Your task to perform on an android device: open app "ZOOM Cloud Meetings" Image 0: 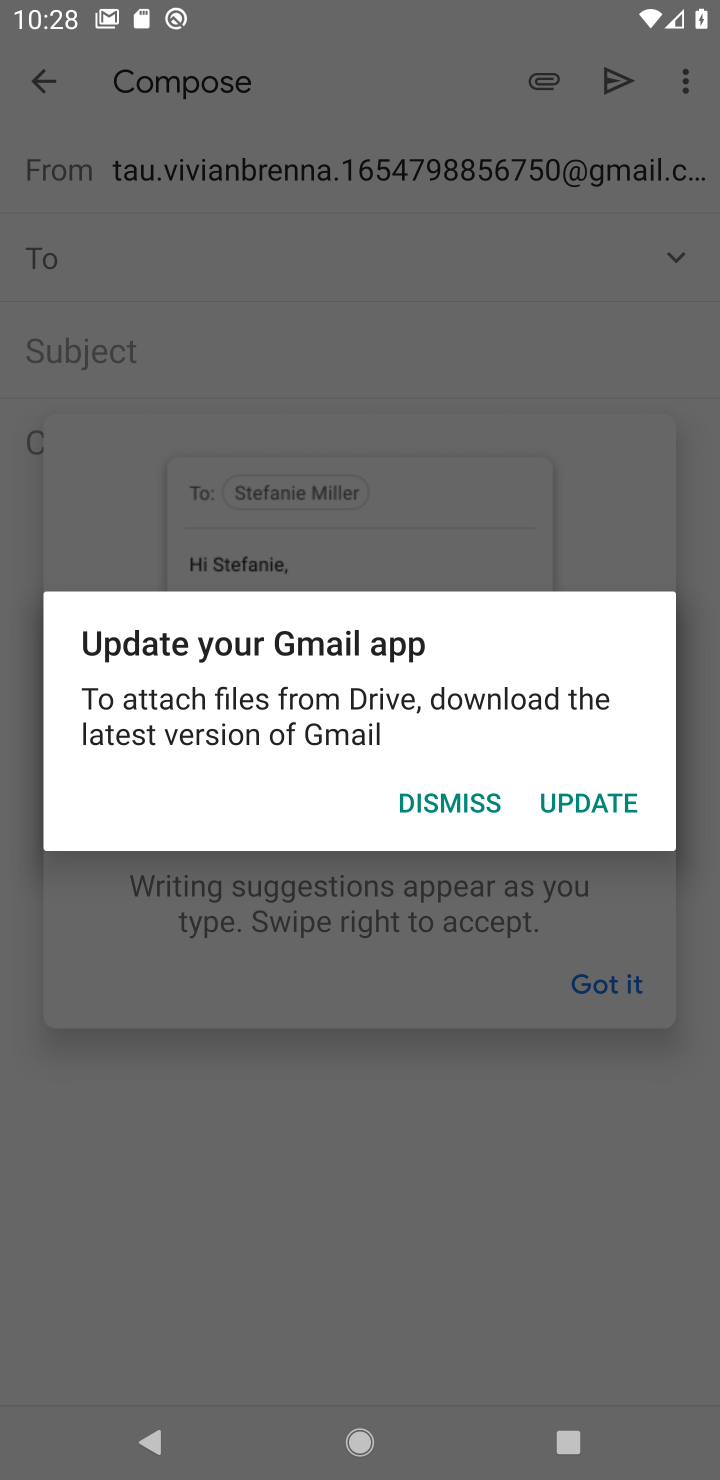
Step 0: click (455, 795)
Your task to perform on an android device: open app "ZOOM Cloud Meetings" Image 1: 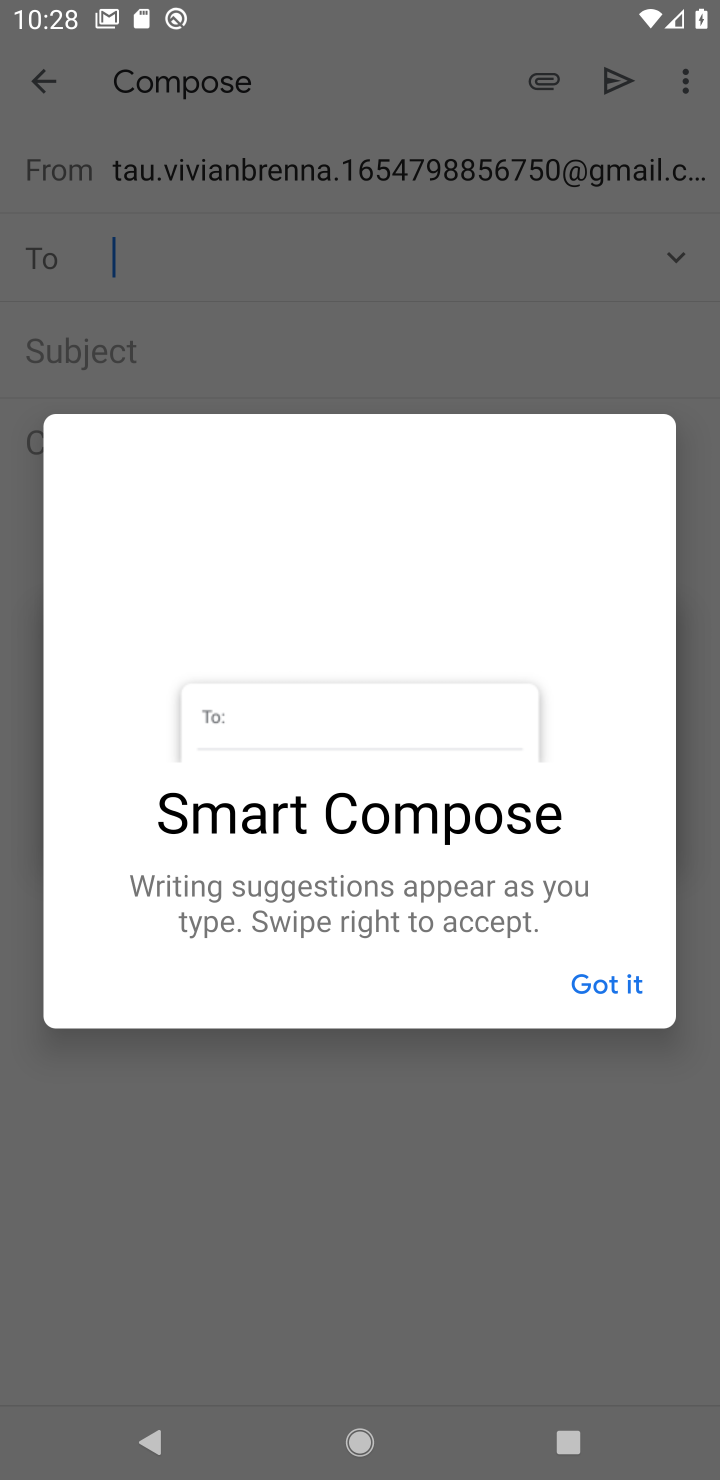
Step 1: click (628, 990)
Your task to perform on an android device: open app "ZOOM Cloud Meetings" Image 2: 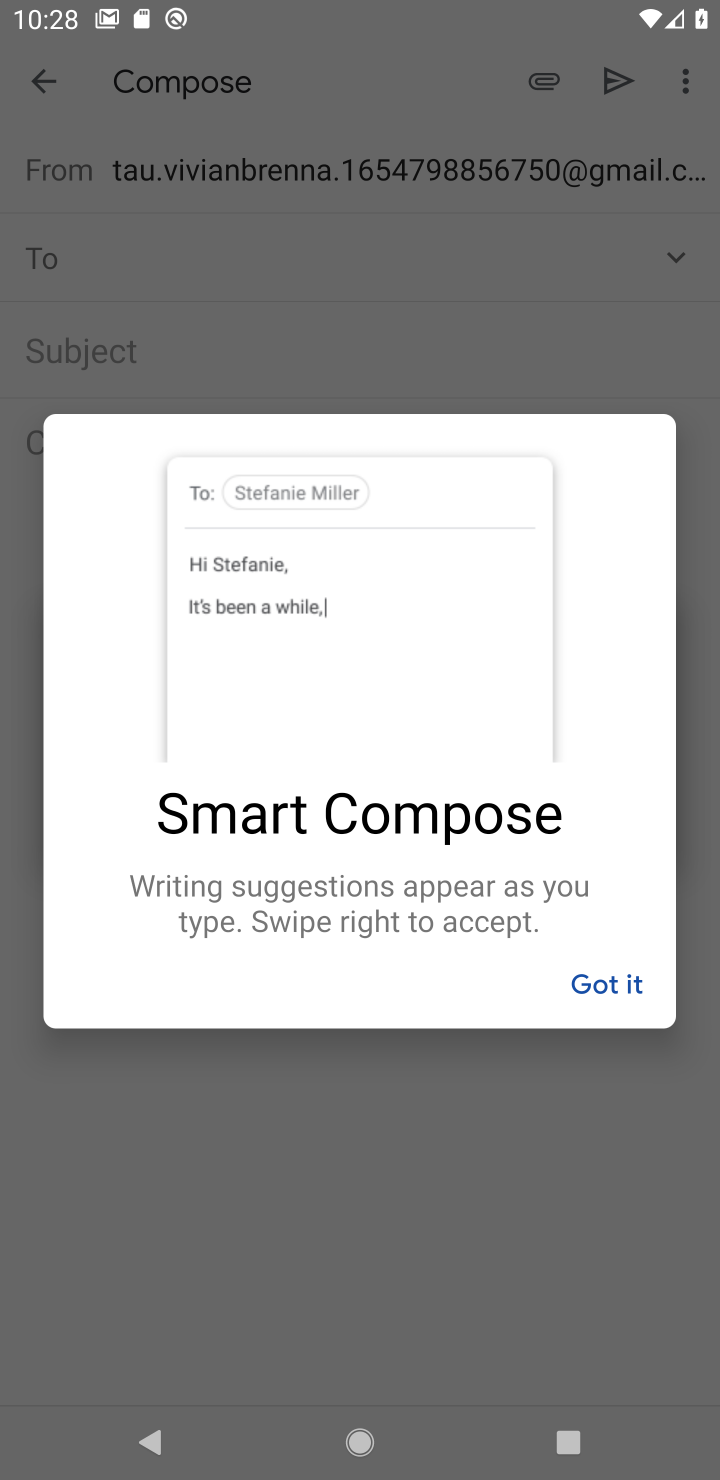
Step 2: click (626, 989)
Your task to perform on an android device: open app "ZOOM Cloud Meetings" Image 3: 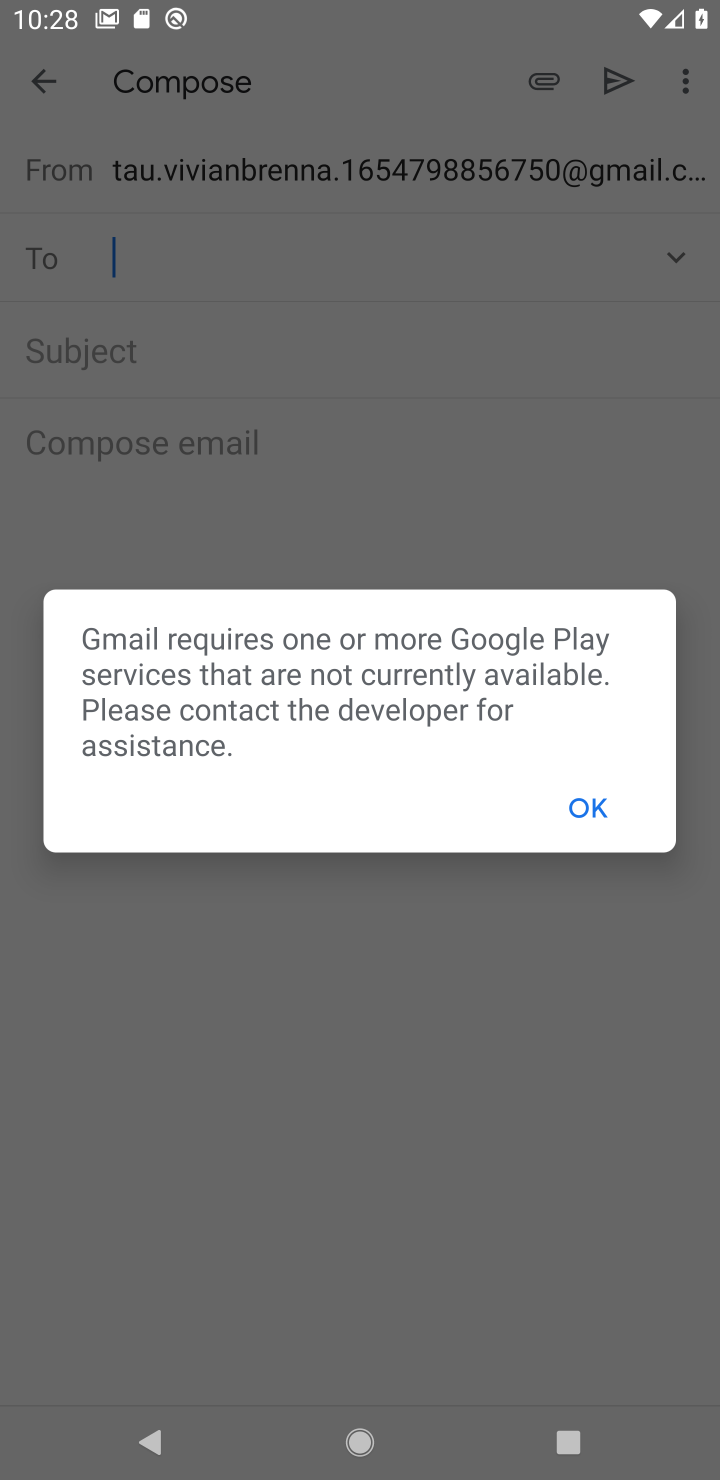
Step 3: click (571, 839)
Your task to perform on an android device: open app "ZOOM Cloud Meetings" Image 4: 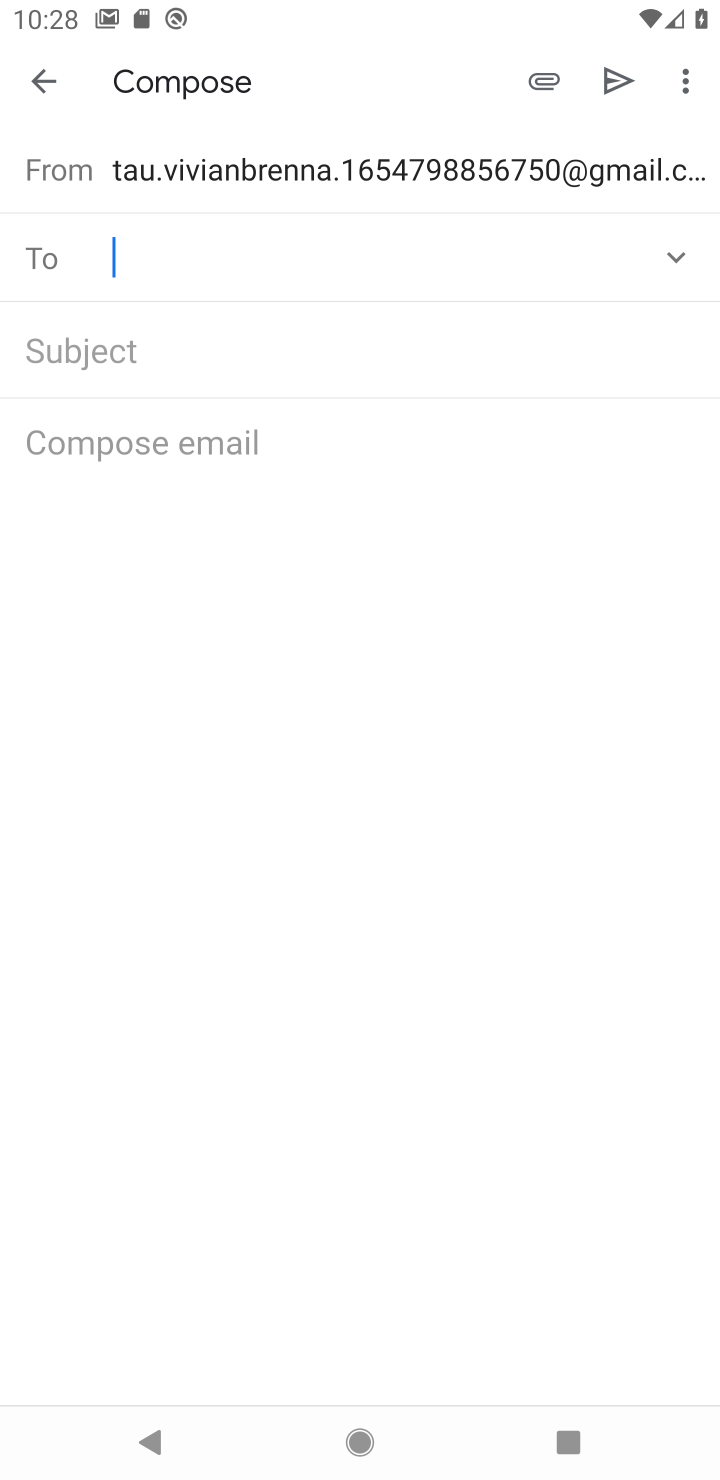
Step 4: click (38, 80)
Your task to perform on an android device: open app "ZOOM Cloud Meetings" Image 5: 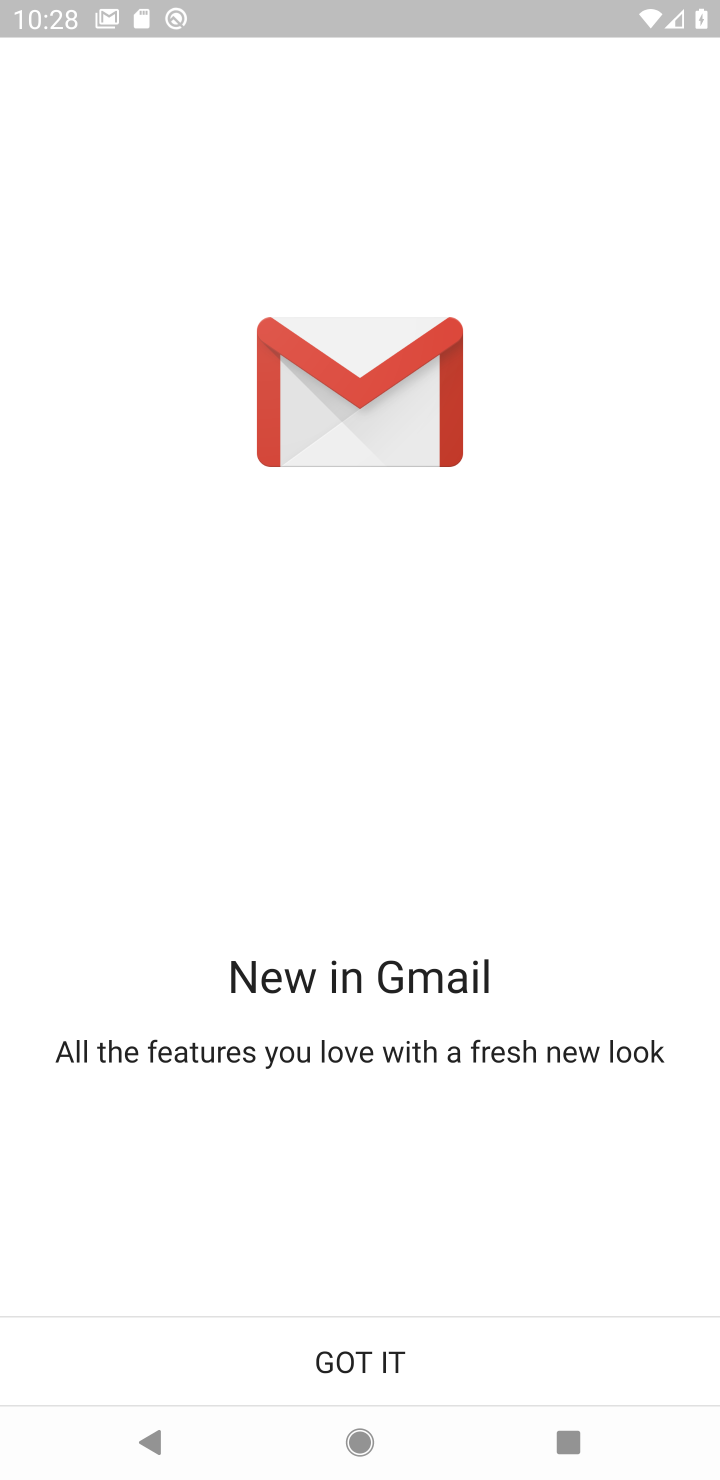
Step 5: press back button
Your task to perform on an android device: open app "ZOOM Cloud Meetings" Image 6: 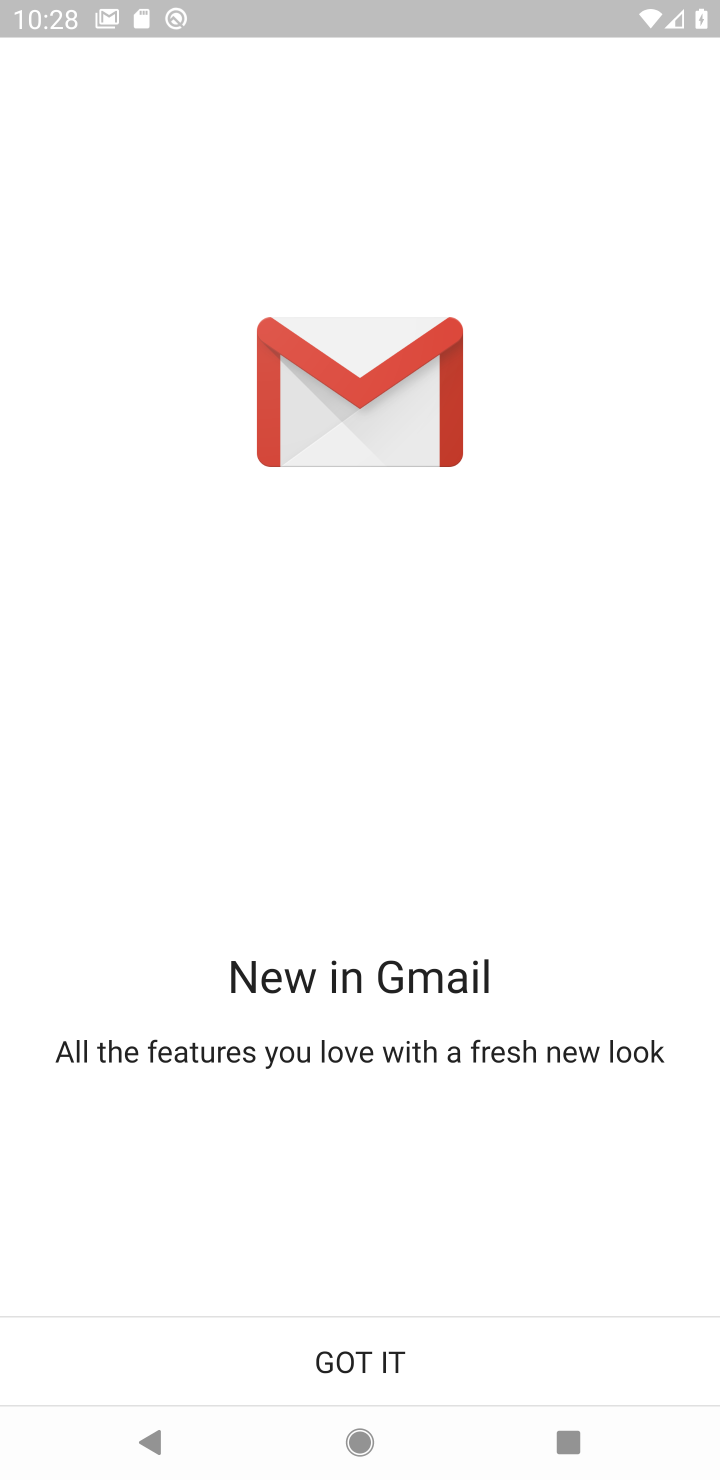
Step 6: press back button
Your task to perform on an android device: open app "ZOOM Cloud Meetings" Image 7: 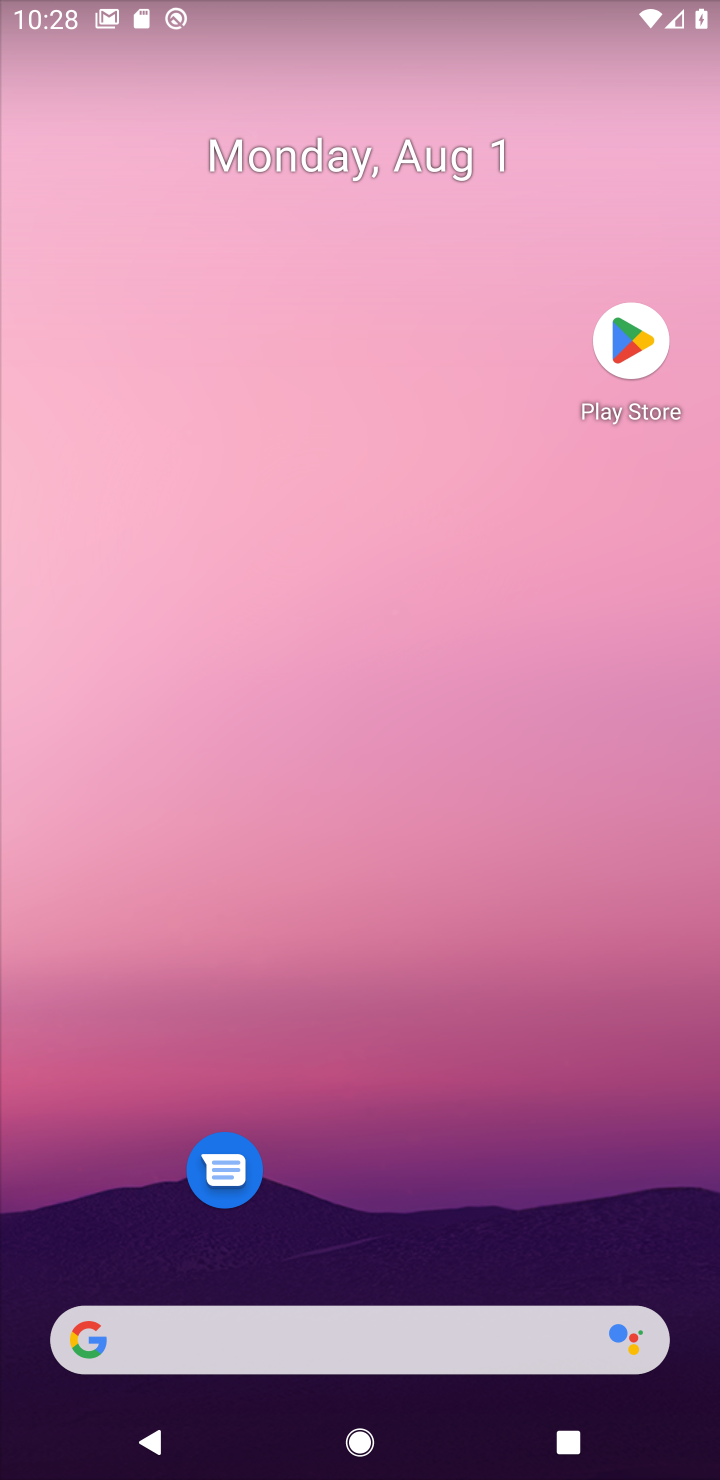
Step 7: press back button
Your task to perform on an android device: open app "ZOOM Cloud Meetings" Image 8: 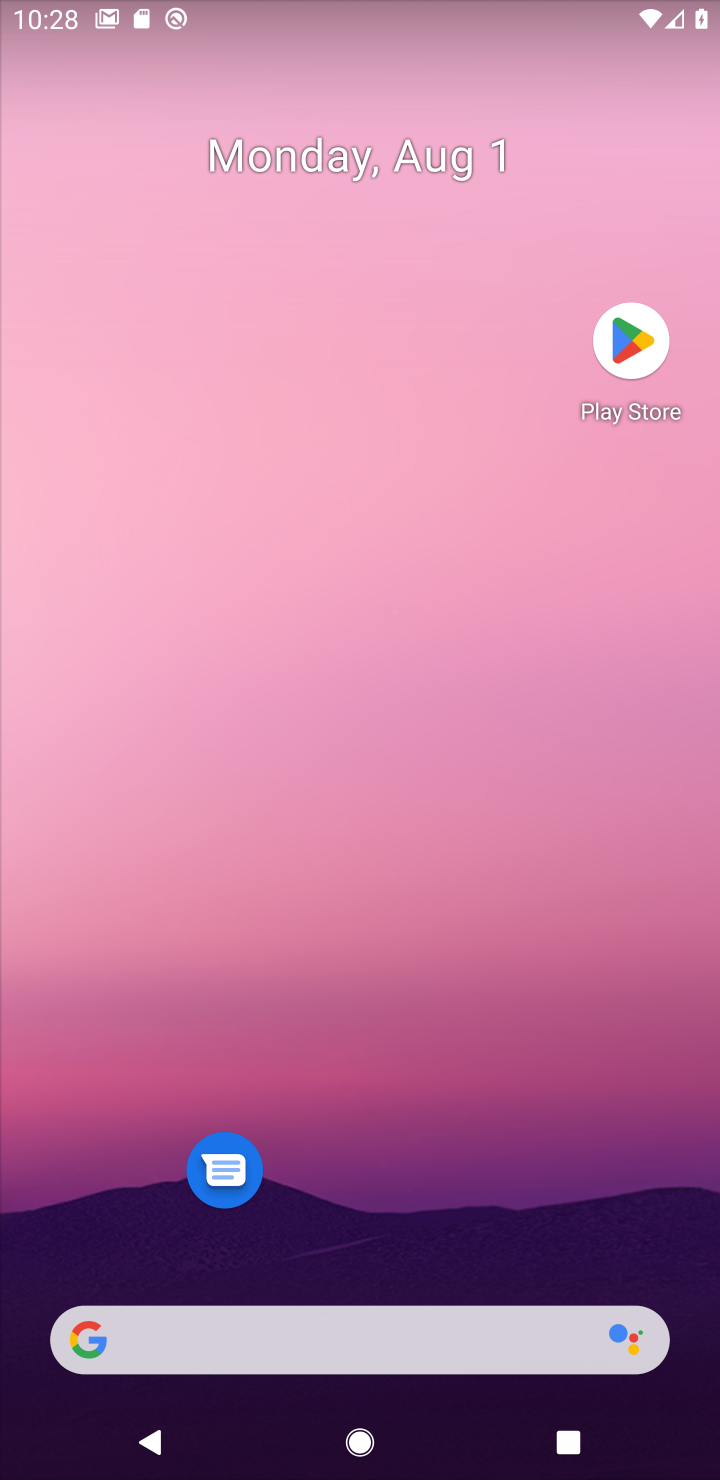
Step 8: click (299, 43)
Your task to perform on an android device: open app "ZOOM Cloud Meetings" Image 9: 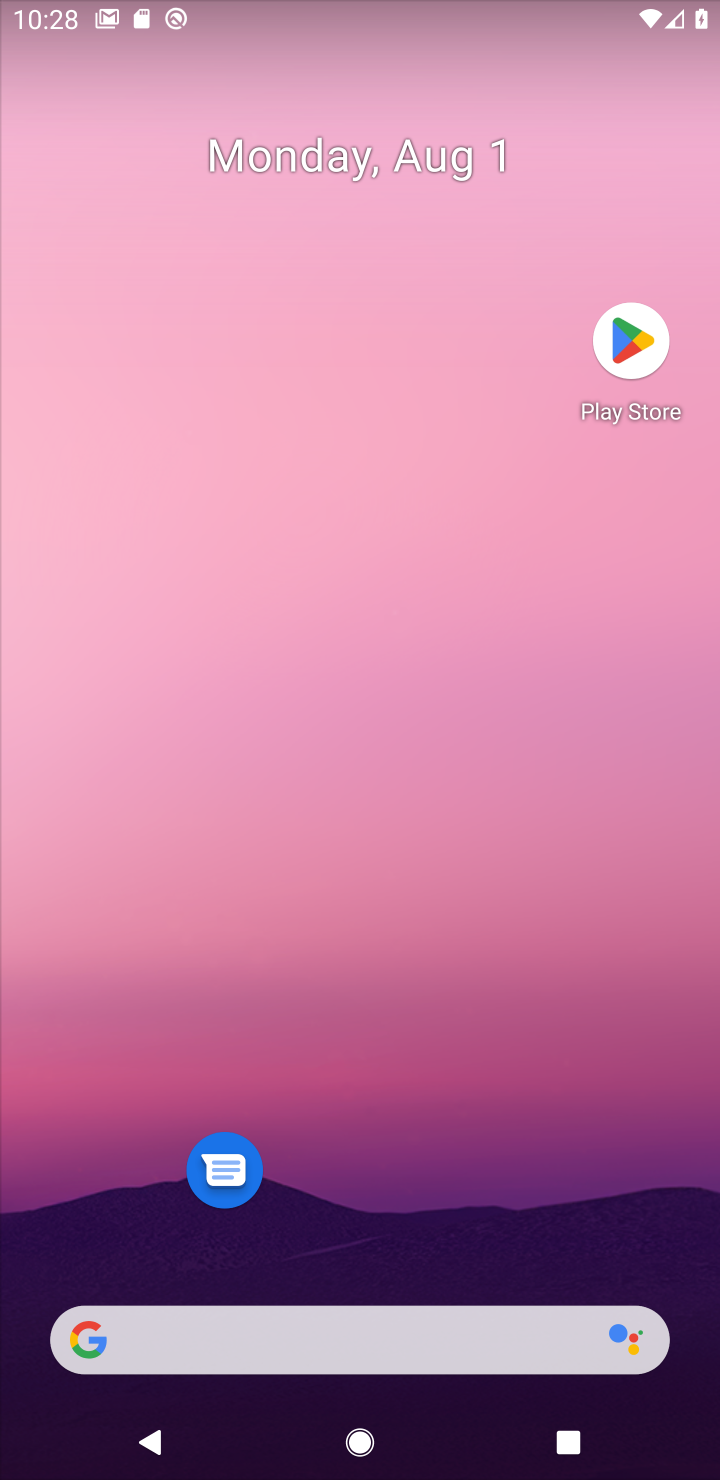
Step 9: drag from (545, 780) to (545, 134)
Your task to perform on an android device: open app "ZOOM Cloud Meetings" Image 10: 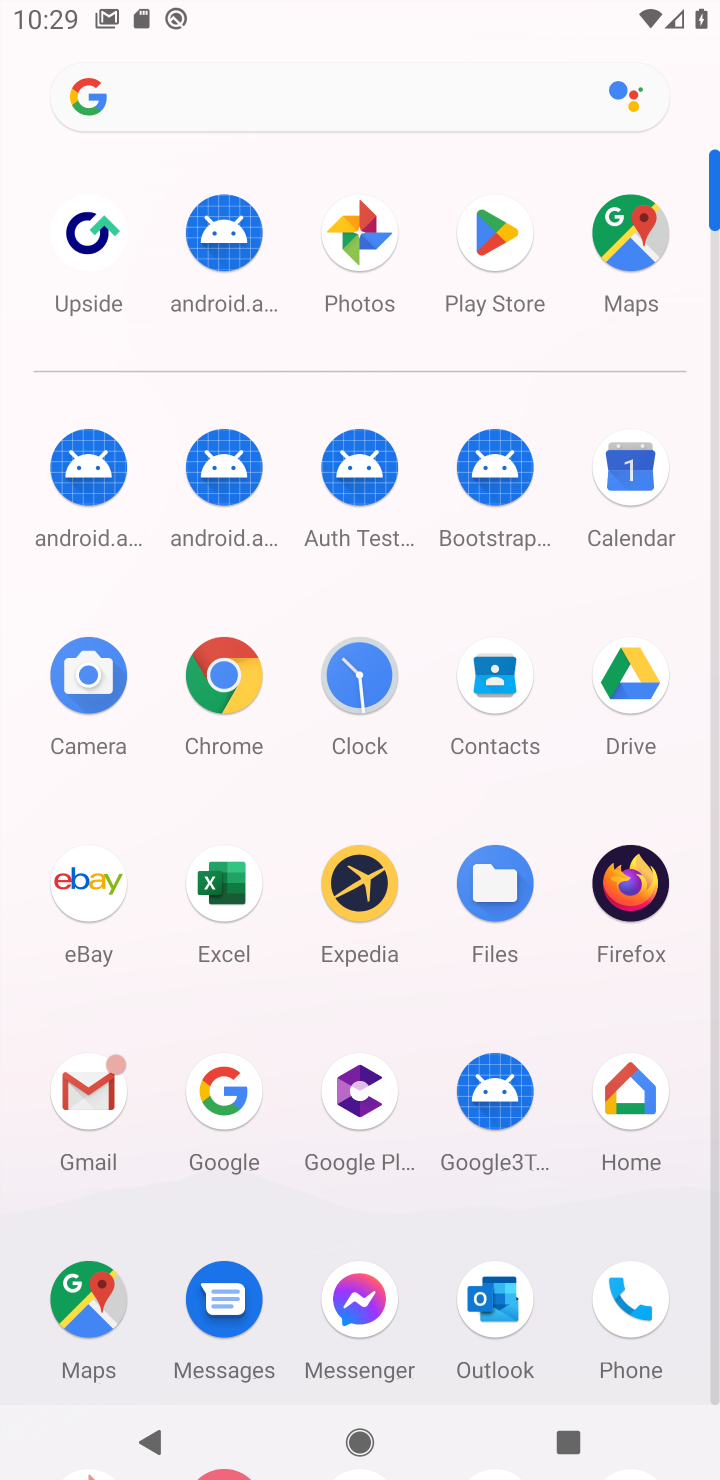
Step 10: click (487, 240)
Your task to perform on an android device: open app "ZOOM Cloud Meetings" Image 11: 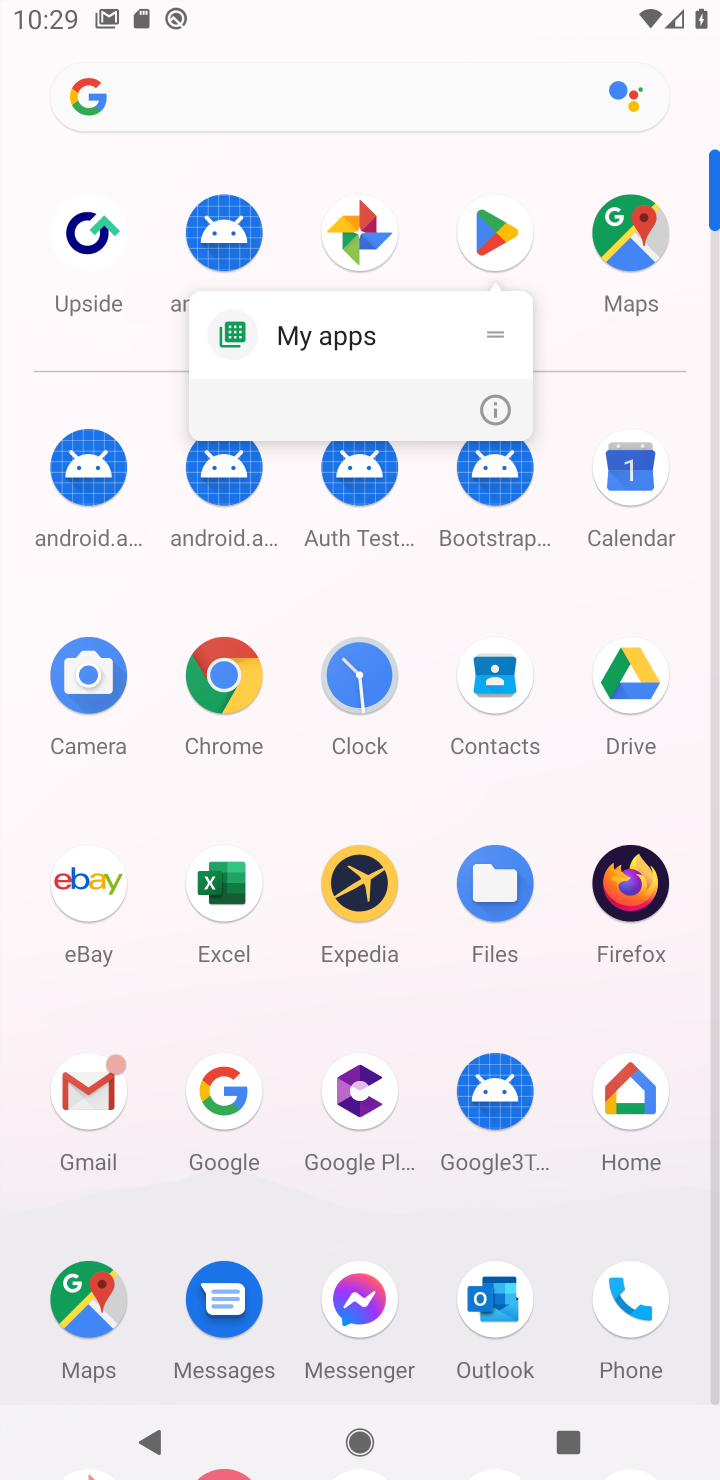
Step 11: click (491, 246)
Your task to perform on an android device: open app "ZOOM Cloud Meetings" Image 12: 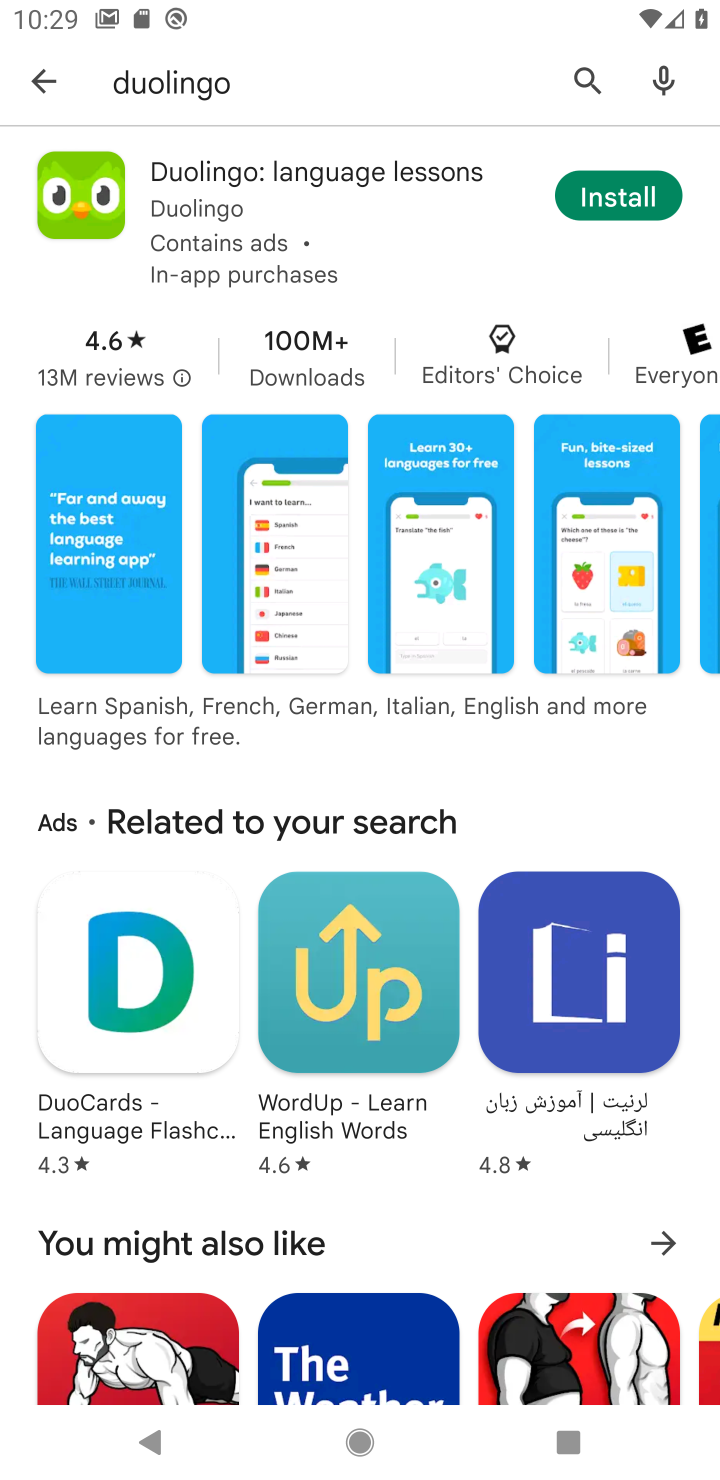
Step 12: click (38, 73)
Your task to perform on an android device: open app "ZOOM Cloud Meetings" Image 13: 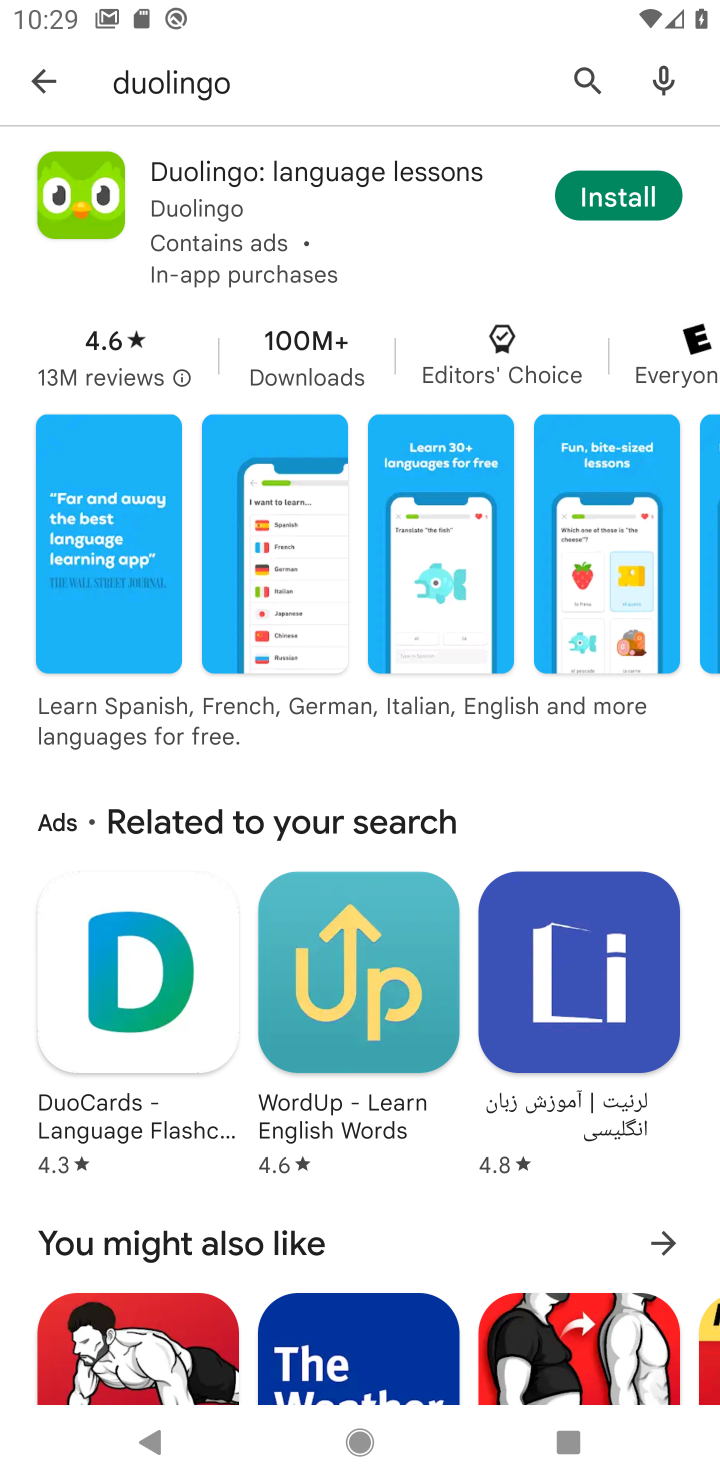
Step 13: click (58, 73)
Your task to perform on an android device: open app "ZOOM Cloud Meetings" Image 14: 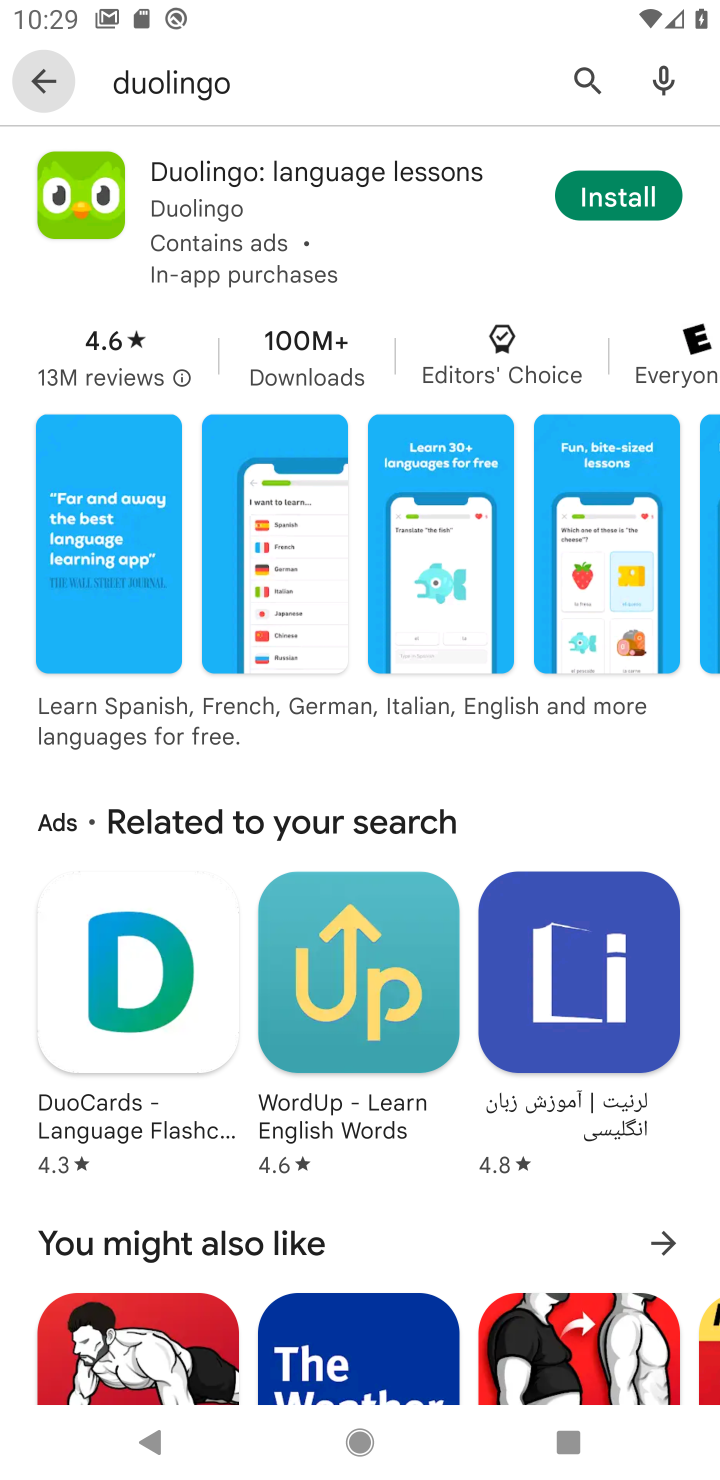
Step 14: click (58, 81)
Your task to perform on an android device: open app "ZOOM Cloud Meetings" Image 15: 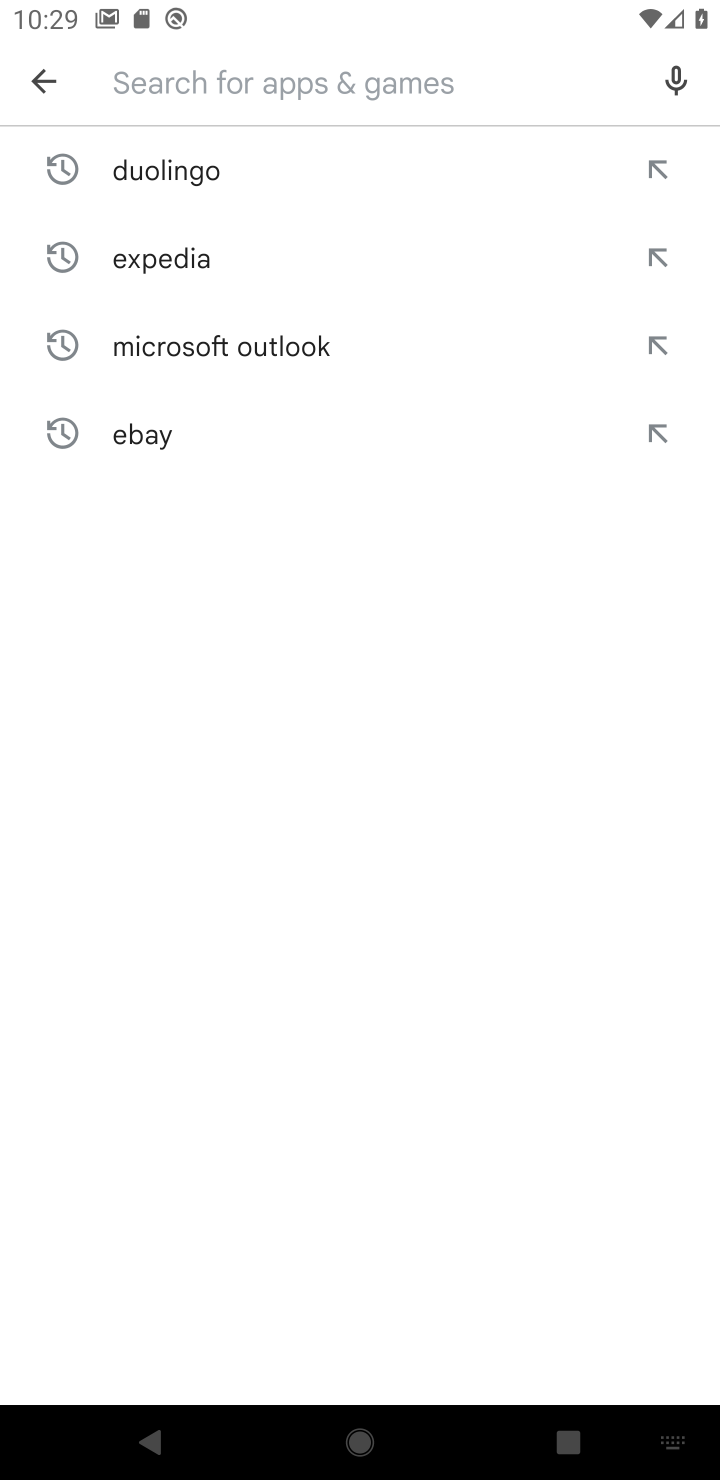
Step 15: click (198, 70)
Your task to perform on an android device: open app "ZOOM Cloud Meetings" Image 16: 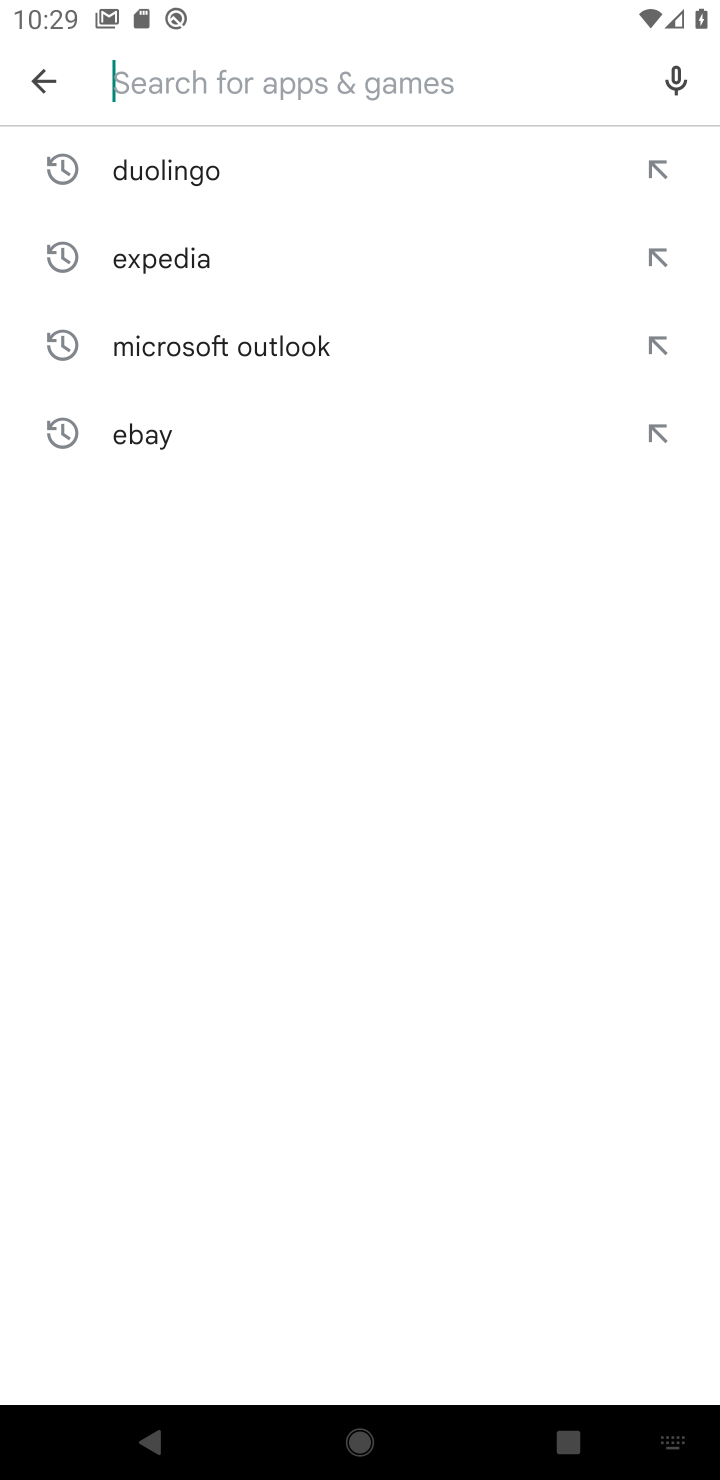
Step 16: click (198, 70)
Your task to perform on an android device: open app "ZOOM Cloud Meetings" Image 17: 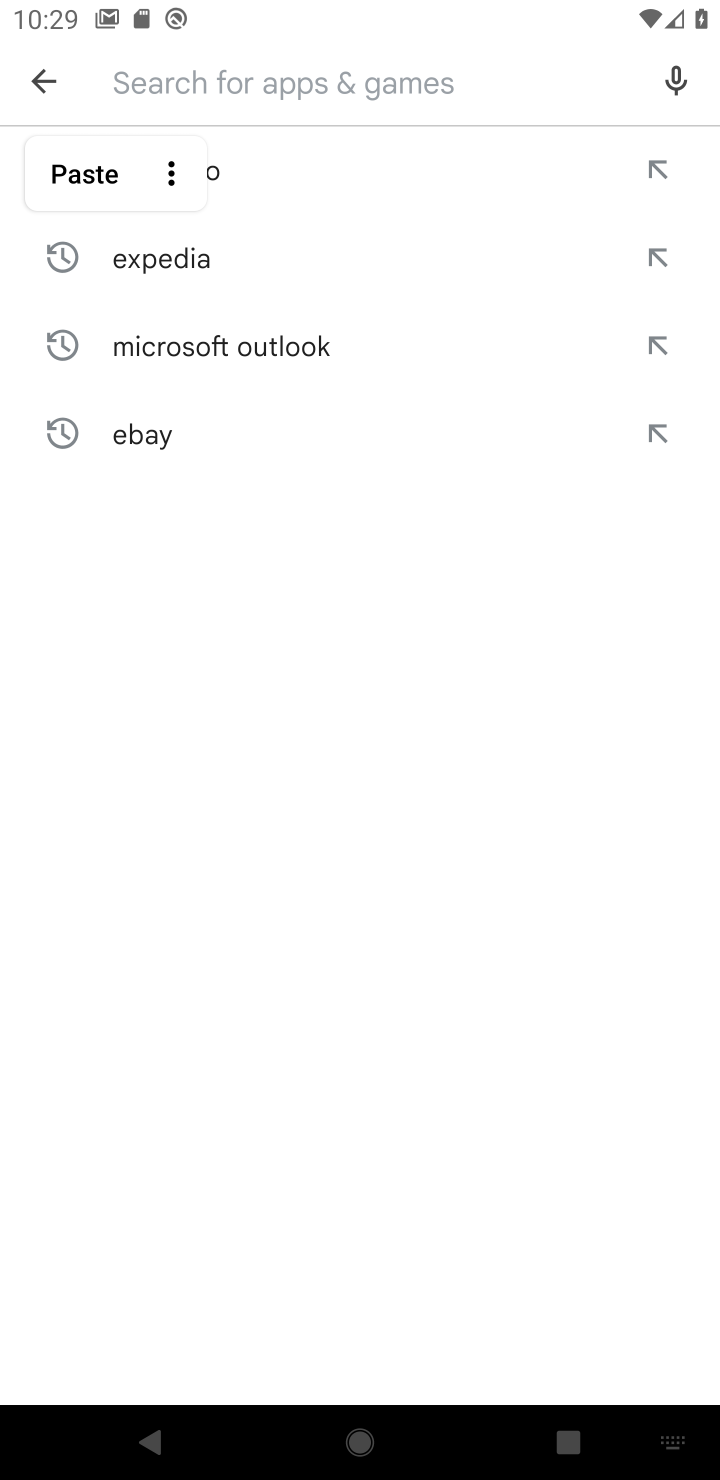
Step 17: type "Zoom cloud meetings"
Your task to perform on an android device: open app "ZOOM Cloud Meetings" Image 18: 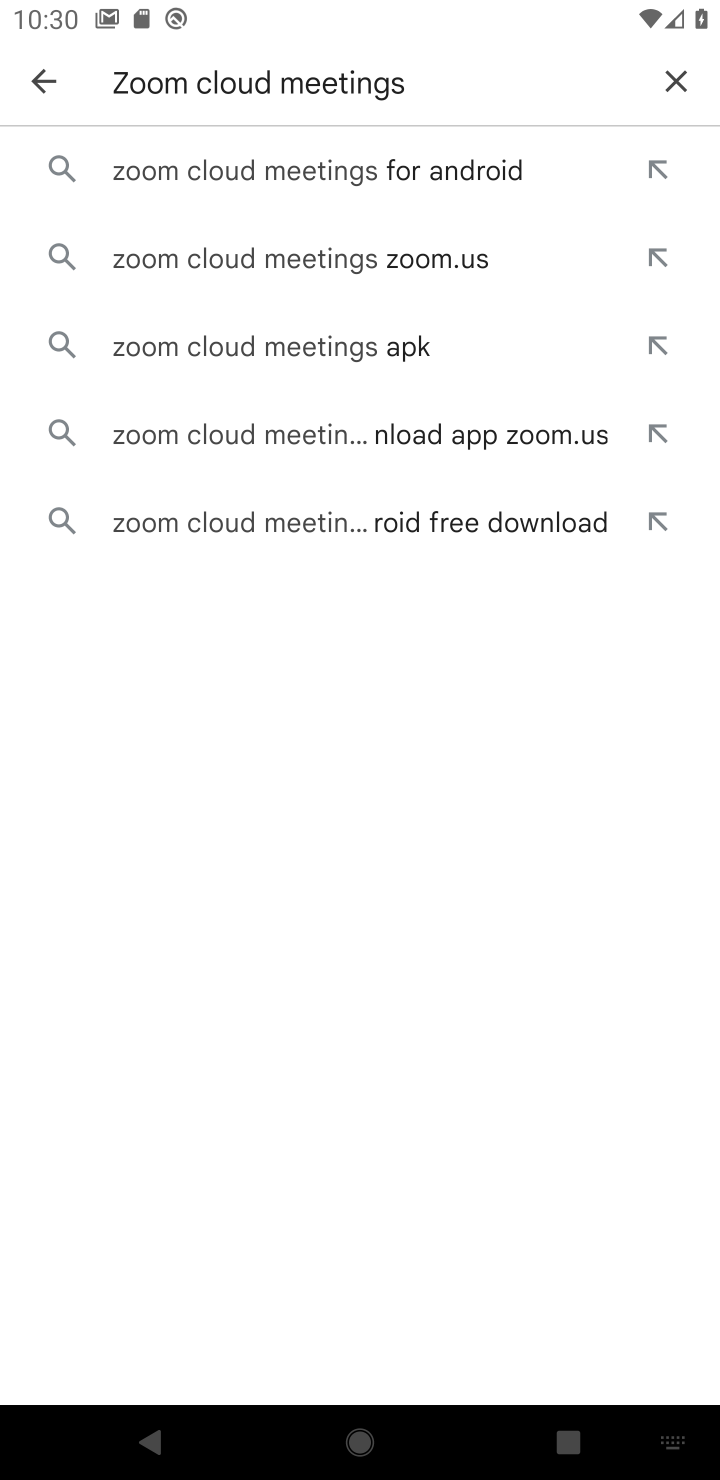
Step 18: click (264, 174)
Your task to perform on an android device: open app "ZOOM Cloud Meetings" Image 19: 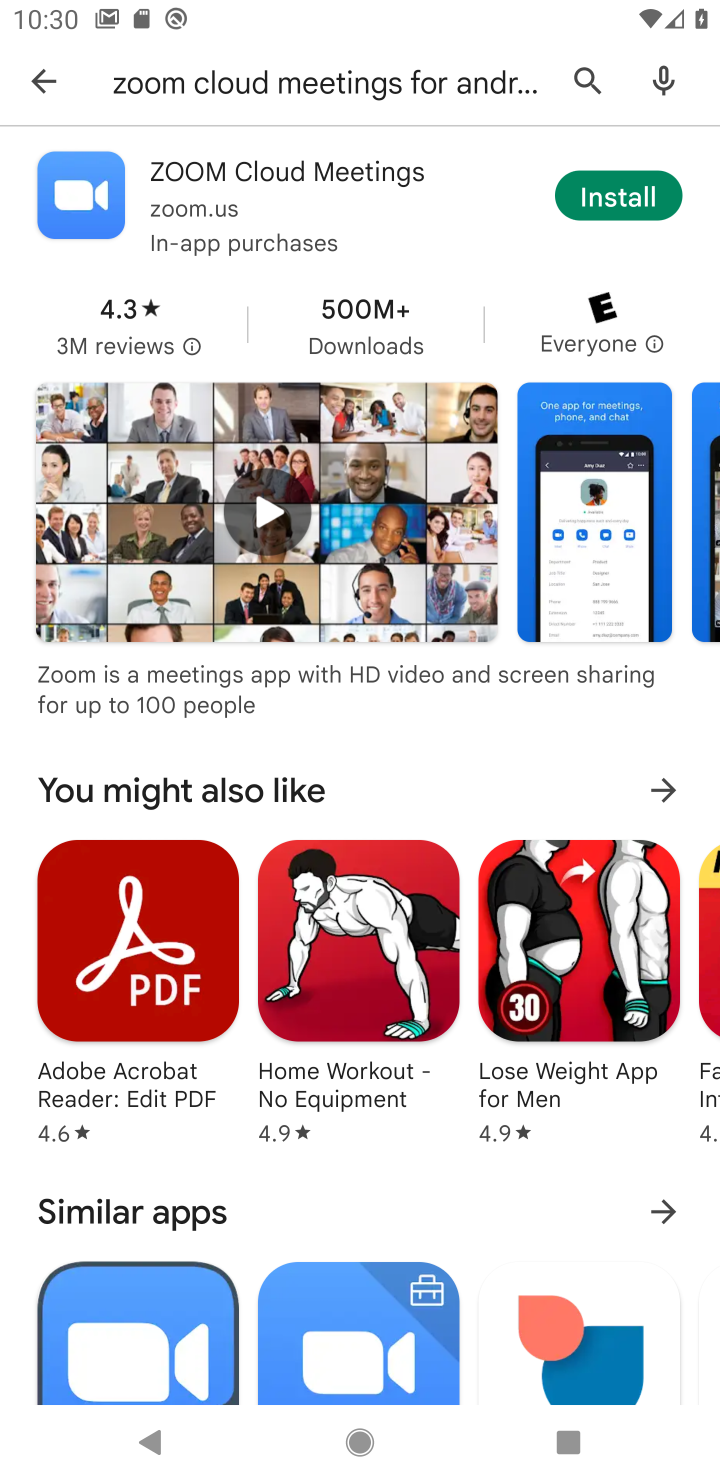
Step 19: click (619, 170)
Your task to perform on an android device: open app "ZOOM Cloud Meetings" Image 20: 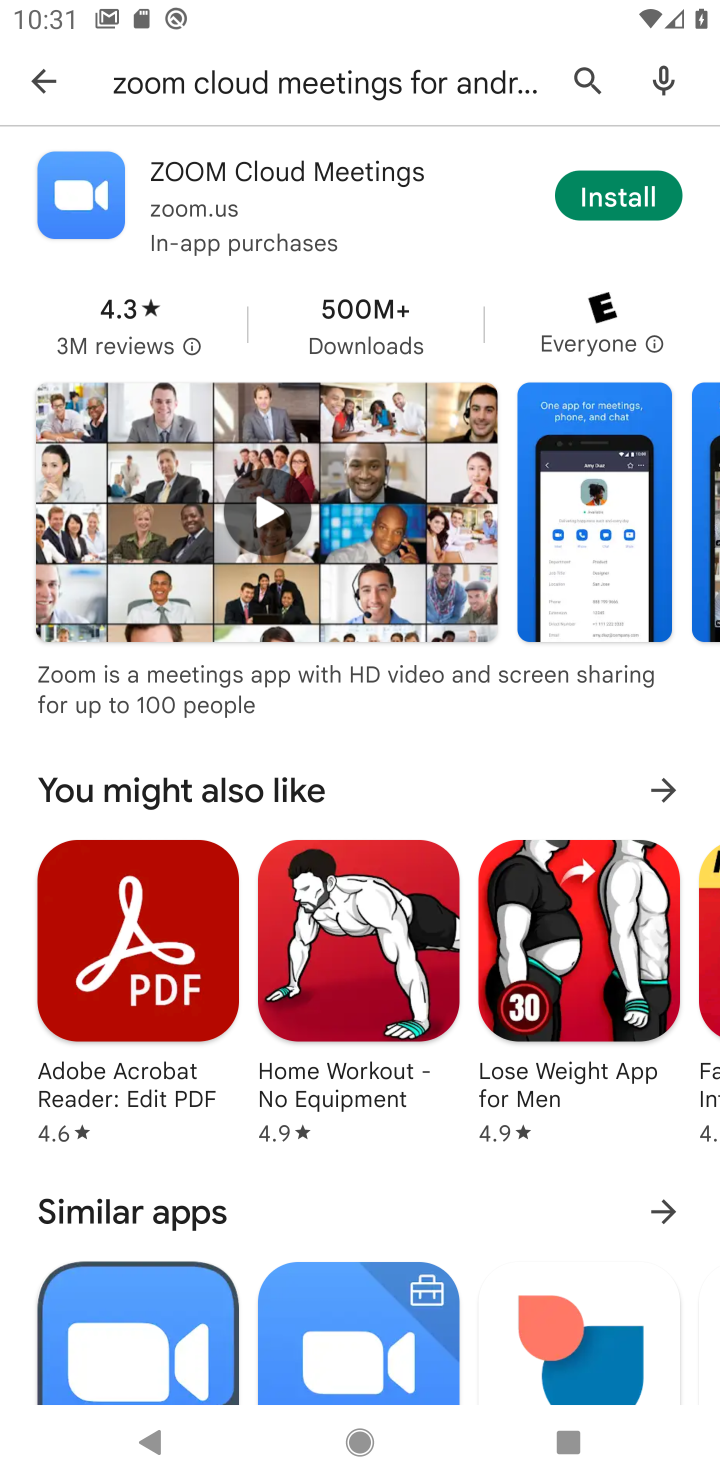
Step 20: click (630, 181)
Your task to perform on an android device: open app "ZOOM Cloud Meetings" Image 21: 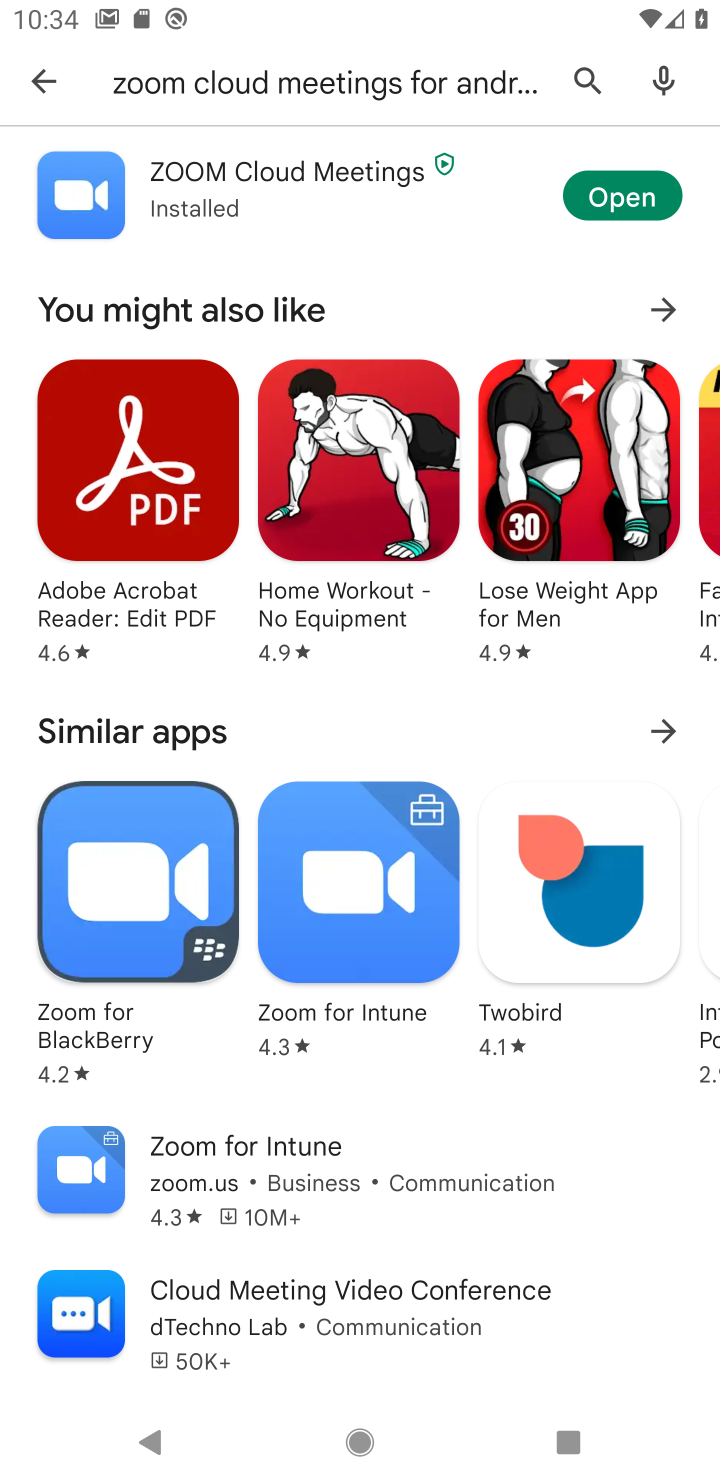
Step 21: click (608, 186)
Your task to perform on an android device: open app "ZOOM Cloud Meetings" Image 22: 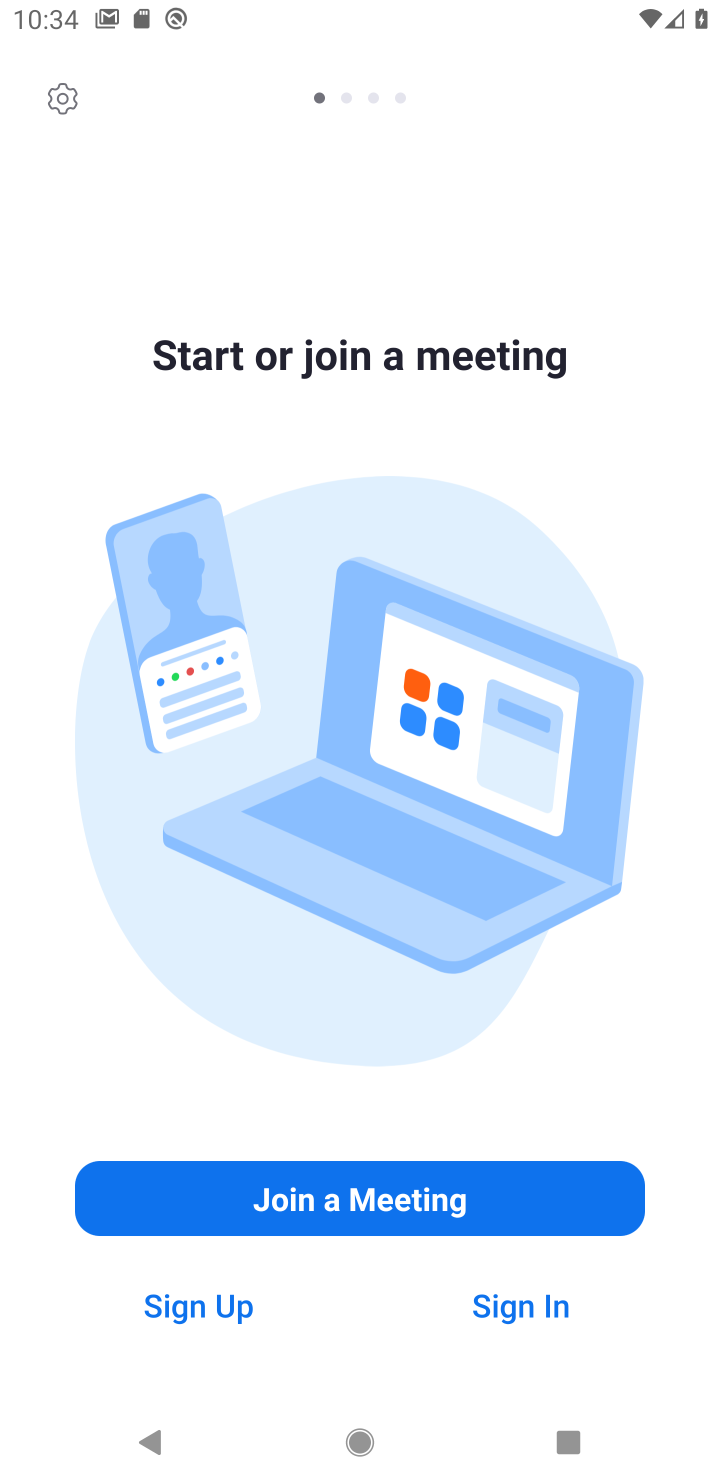
Step 22: press back button
Your task to perform on an android device: open app "ZOOM Cloud Meetings" Image 23: 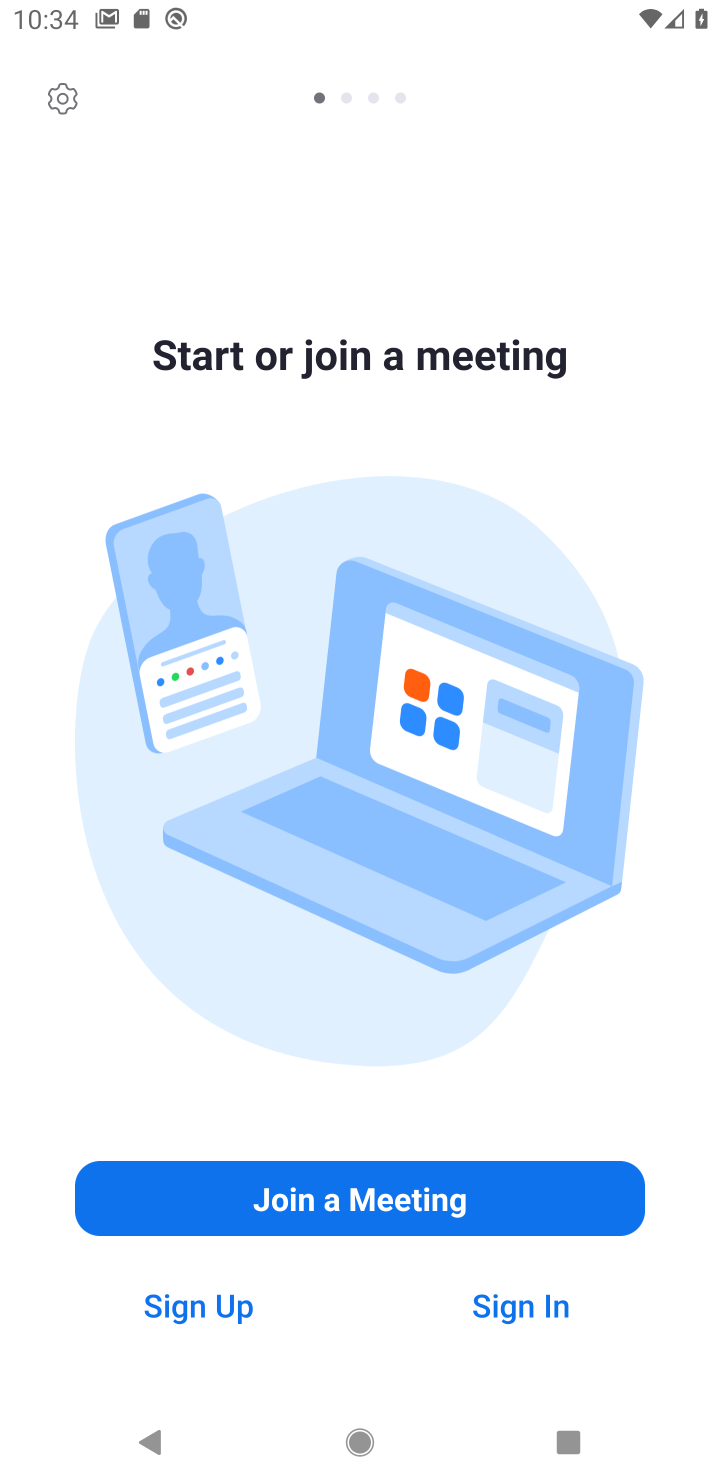
Step 23: press back button
Your task to perform on an android device: open app "ZOOM Cloud Meetings" Image 24: 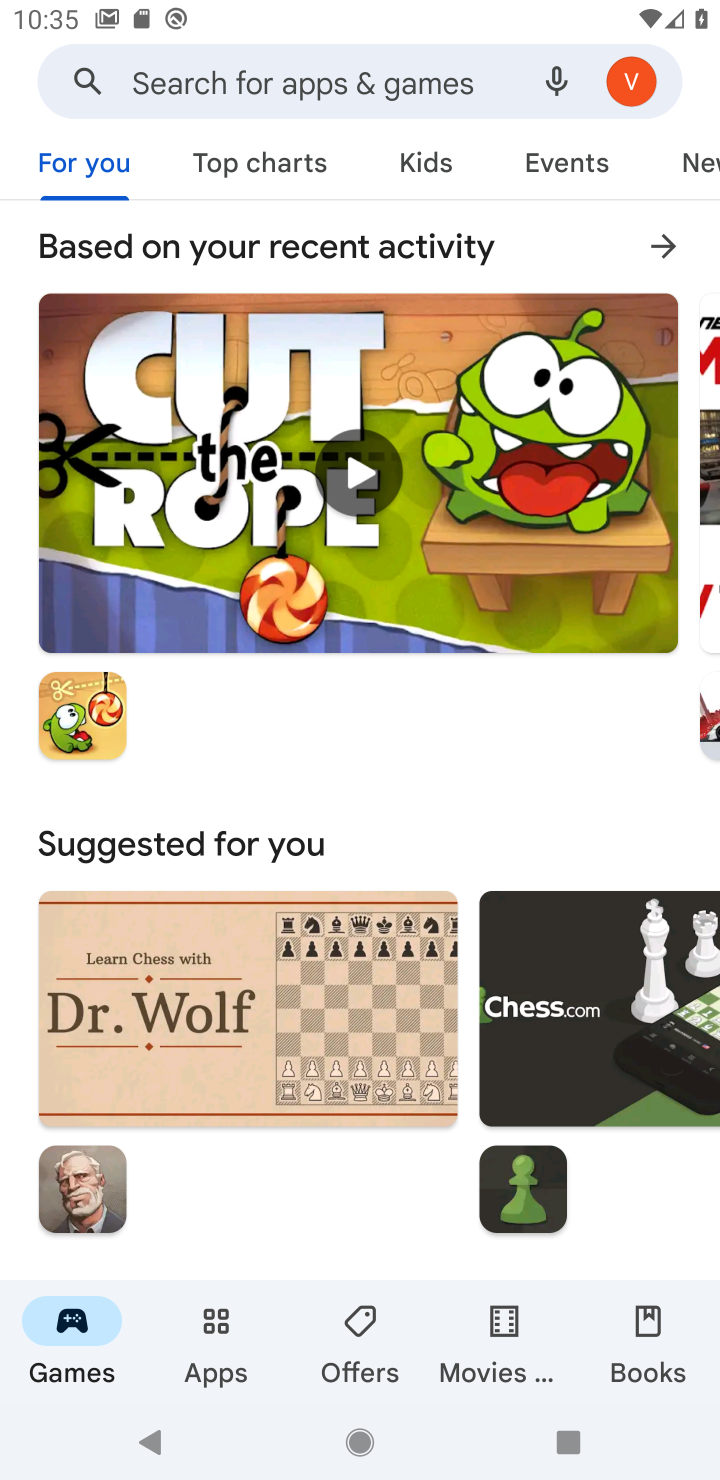
Step 24: click (237, 84)
Your task to perform on an android device: open app "ZOOM Cloud Meetings" Image 25: 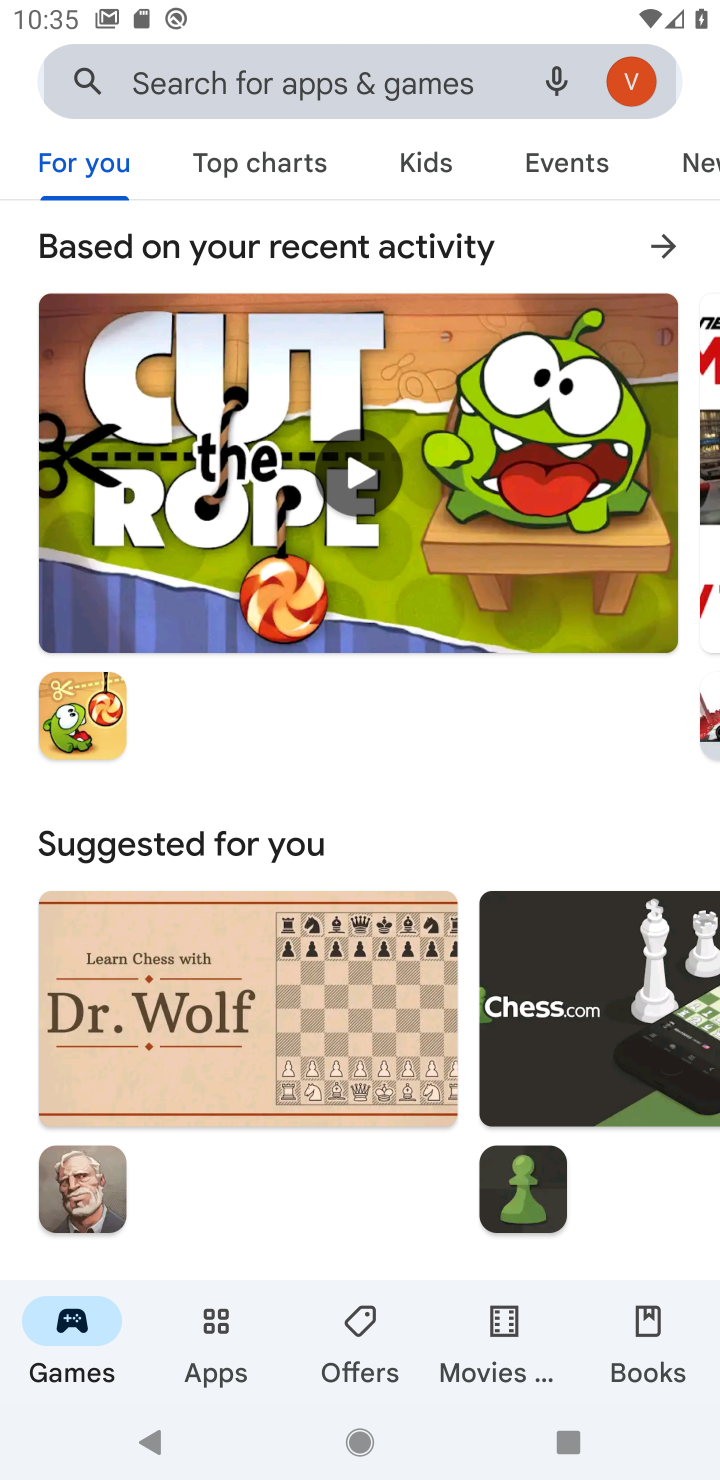
Step 25: click (190, 78)
Your task to perform on an android device: open app "ZOOM Cloud Meetings" Image 26: 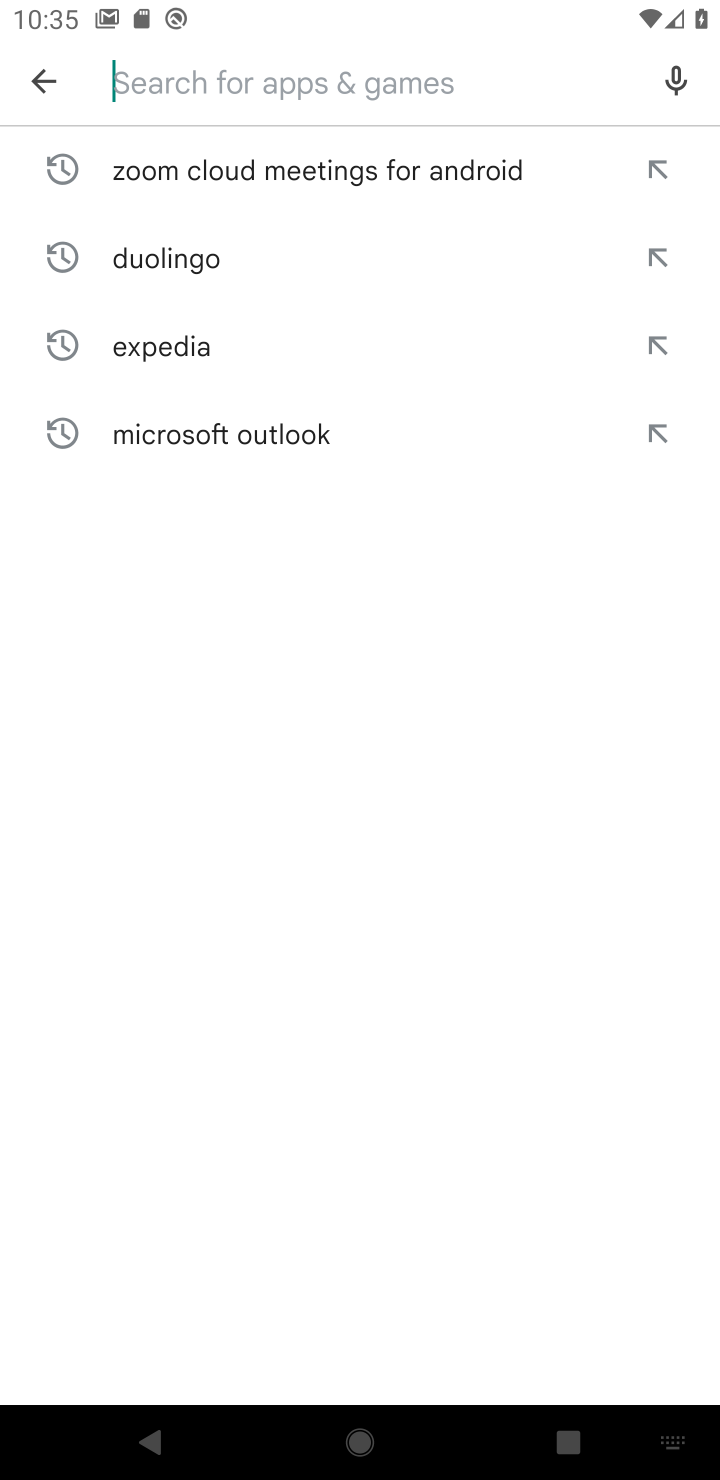
Step 26: type "Zoom Cloud Meetings"
Your task to perform on an android device: open app "ZOOM Cloud Meetings" Image 27: 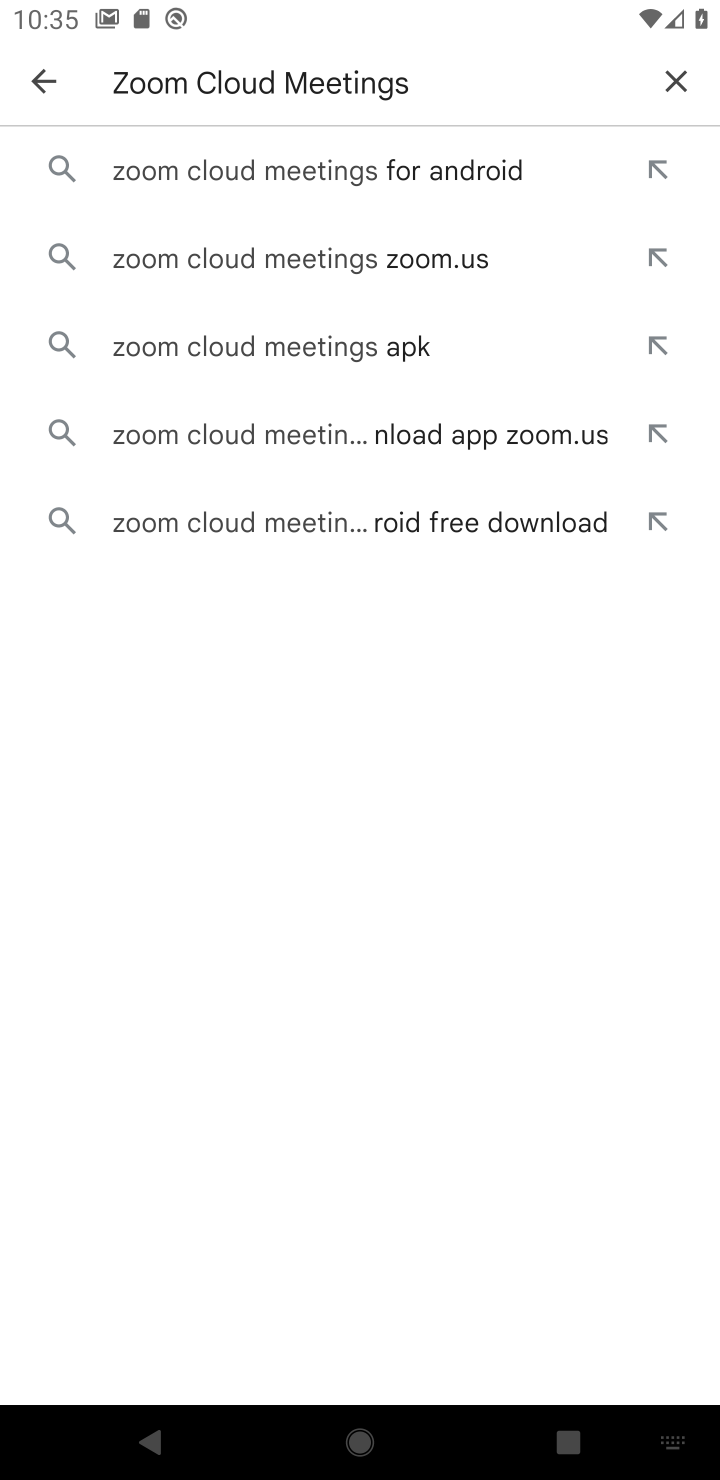
Step 27: click (271, 169)
Your task to perform on an android device: open app "ZOOM Cloud Meetings" Image 28: 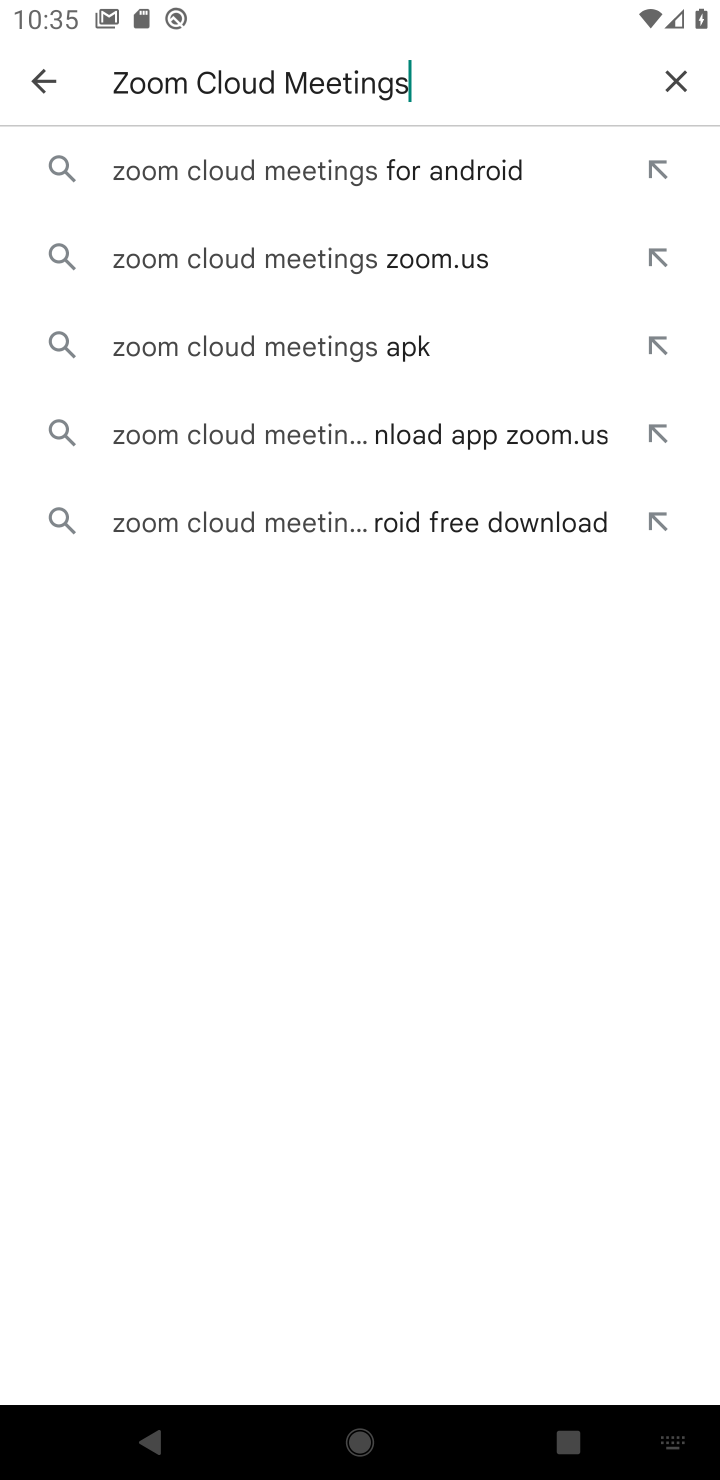
Step 28: click (290, 177)
Your task to perform on an android device: open app "ZOOM Cloud Meetings" Image 29: 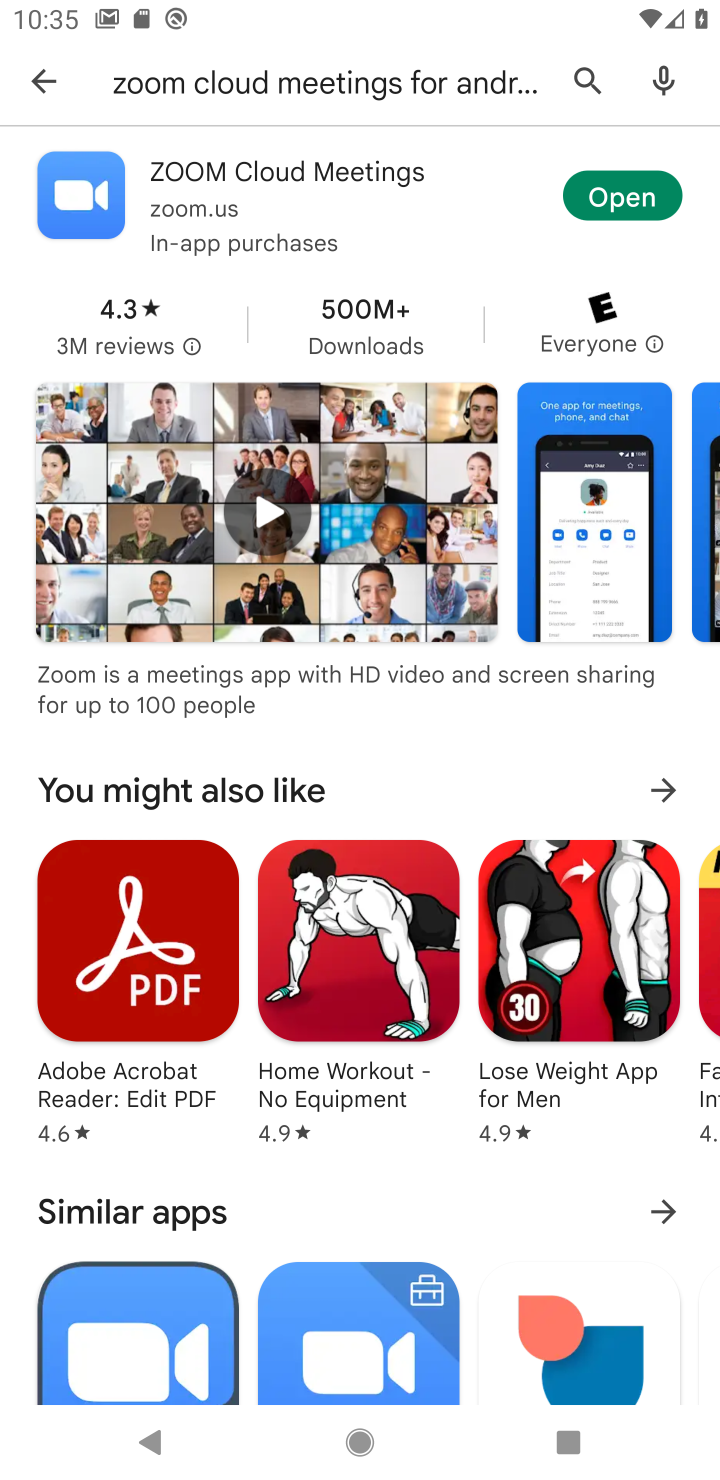
Step 29: click (630, 187)
Your task to perform on an android device: open app "ZOOM Cloud Meetings" Image 30: 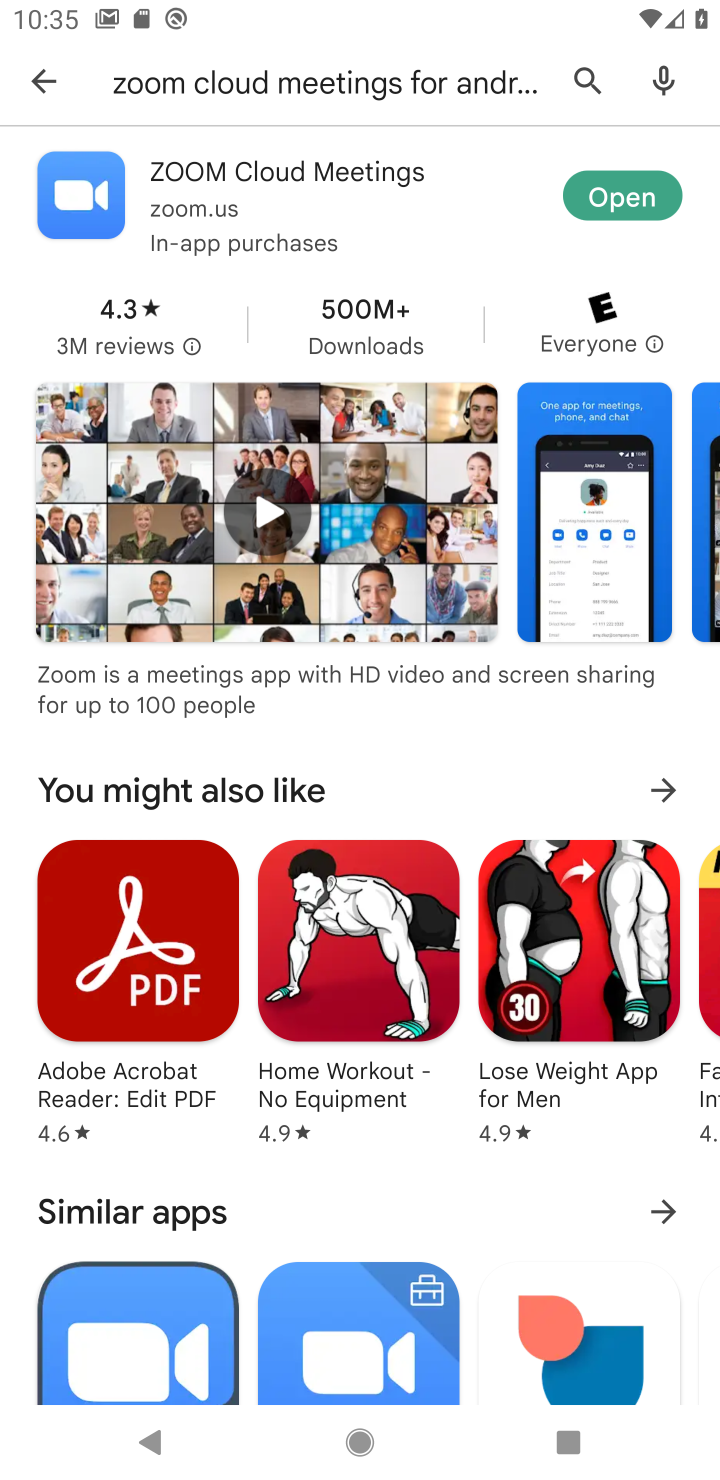
Step 30: click (630, 187)
Your task to perform on an android device: open app "ZOOM Cloud Meetings" Image 31: 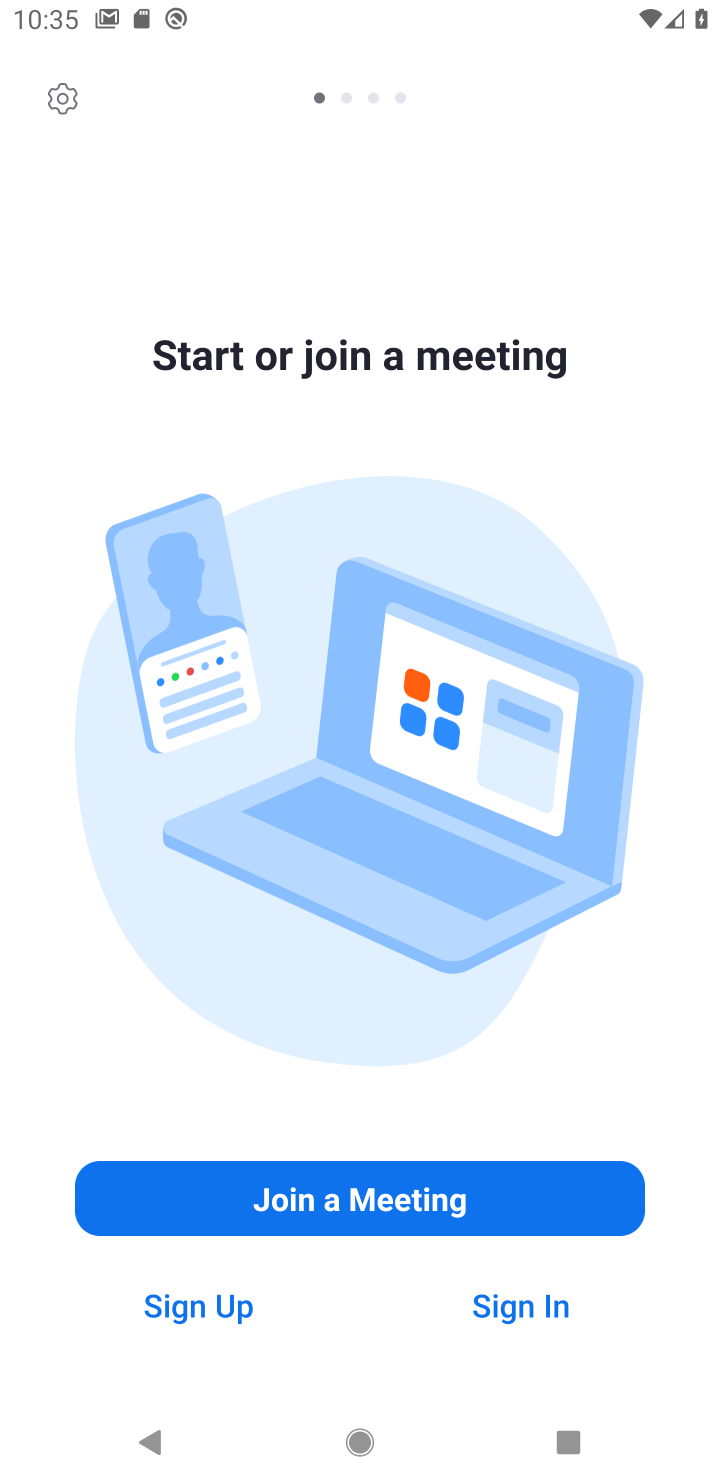
Step 31: click (634, 193)
Your task to perform on an android device: open app "ZOOM Cloud Meetings" Image 32: 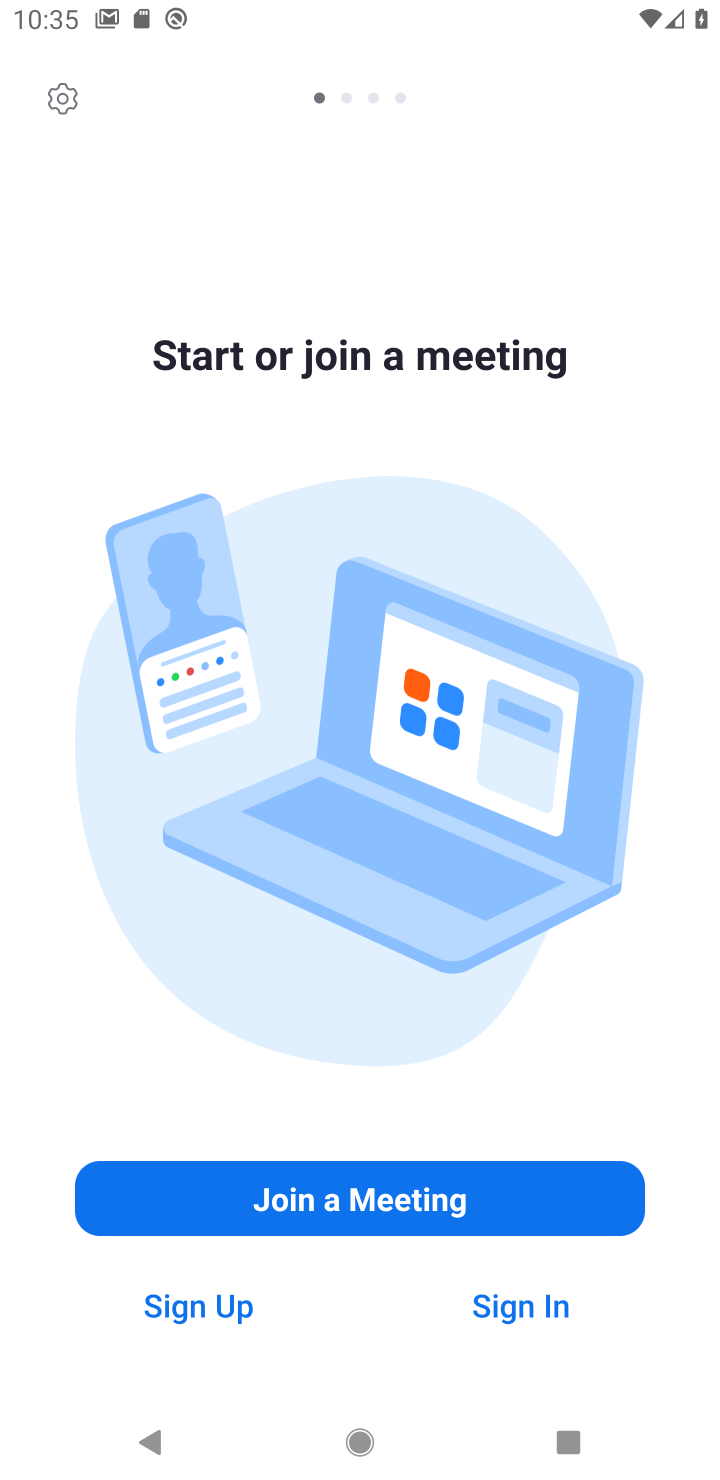
Step 32: task complete